Your task to perform on an android device: Go to ESPN.com Image 0: 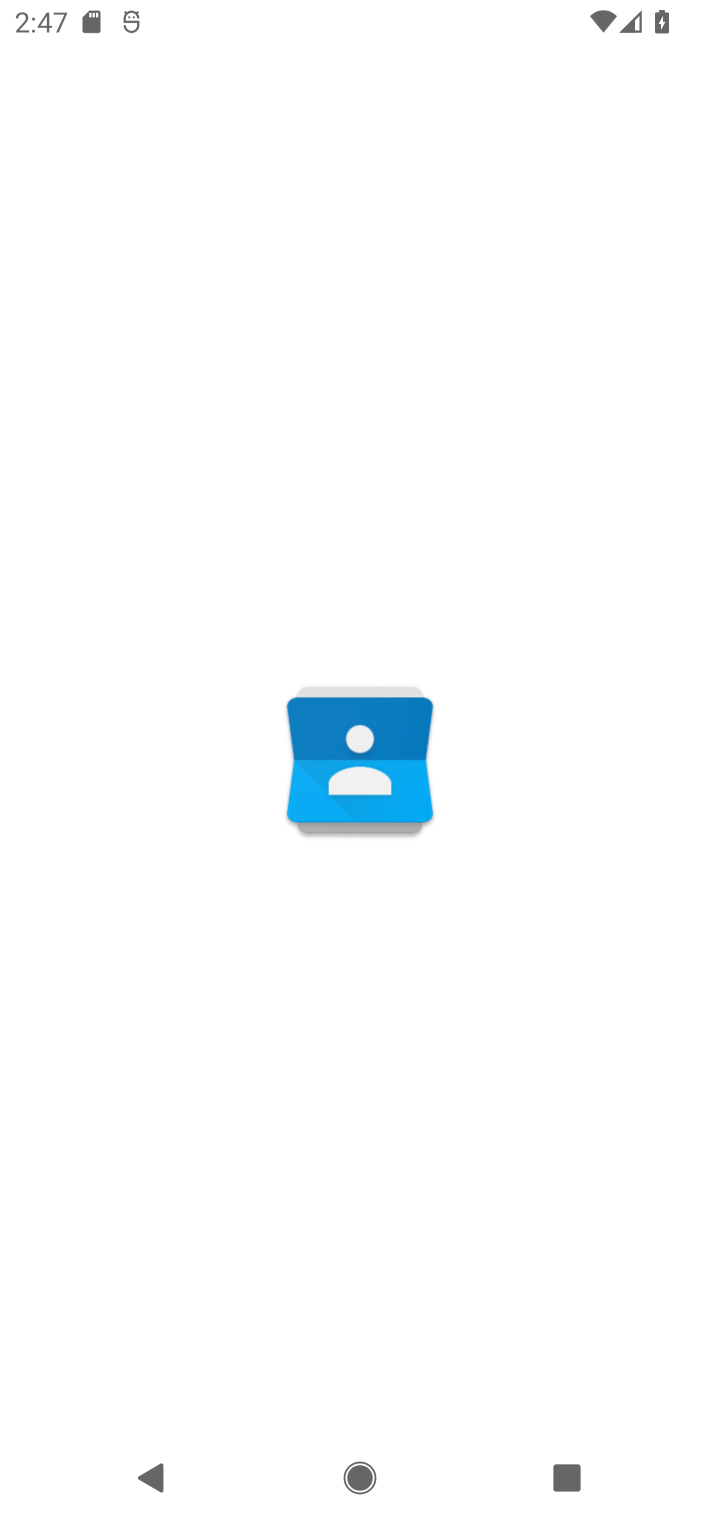
Step 0: press home button
Your task to perform on an android device: Go to ESPN.com Image 1: 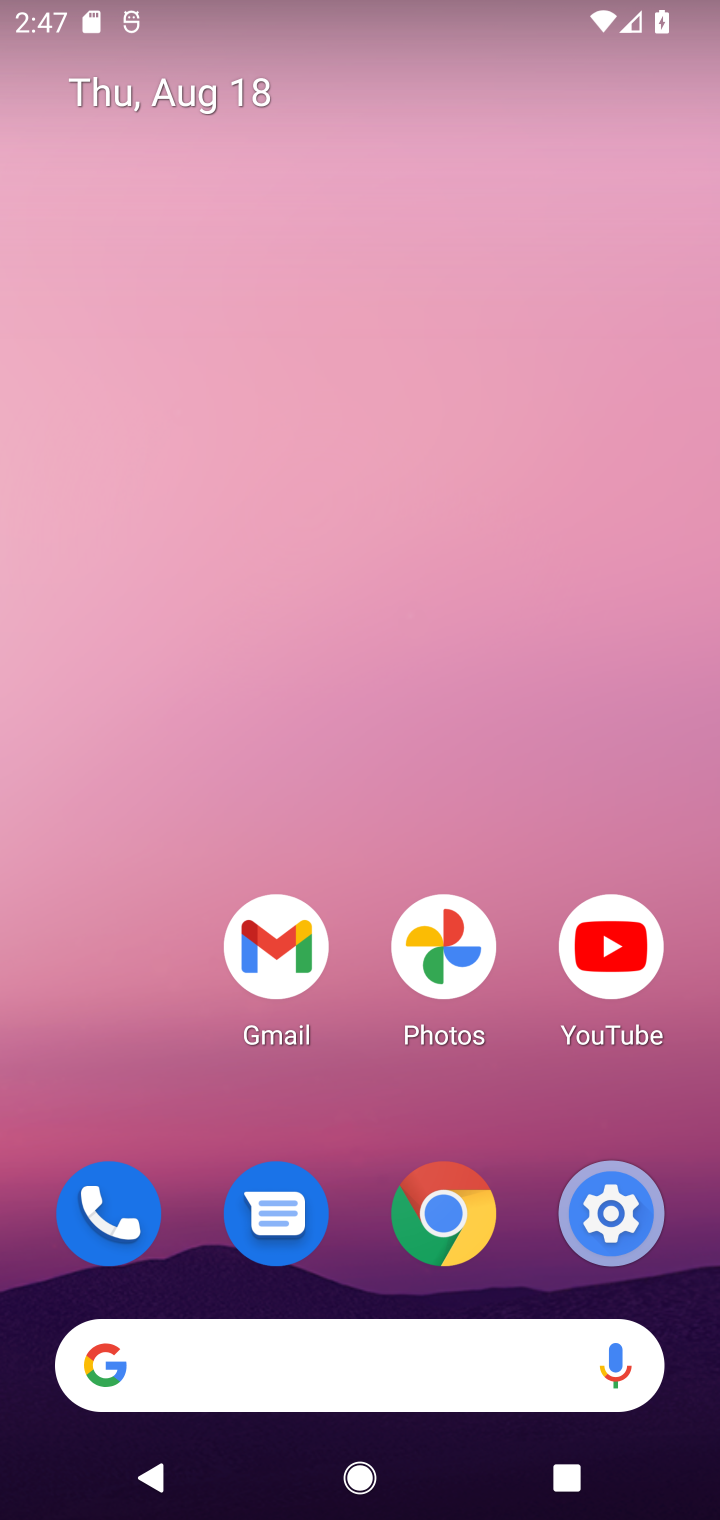
Step 1: click (114, 1372)
Your task to perform on an android device: Go to ESPN.com Image 2: 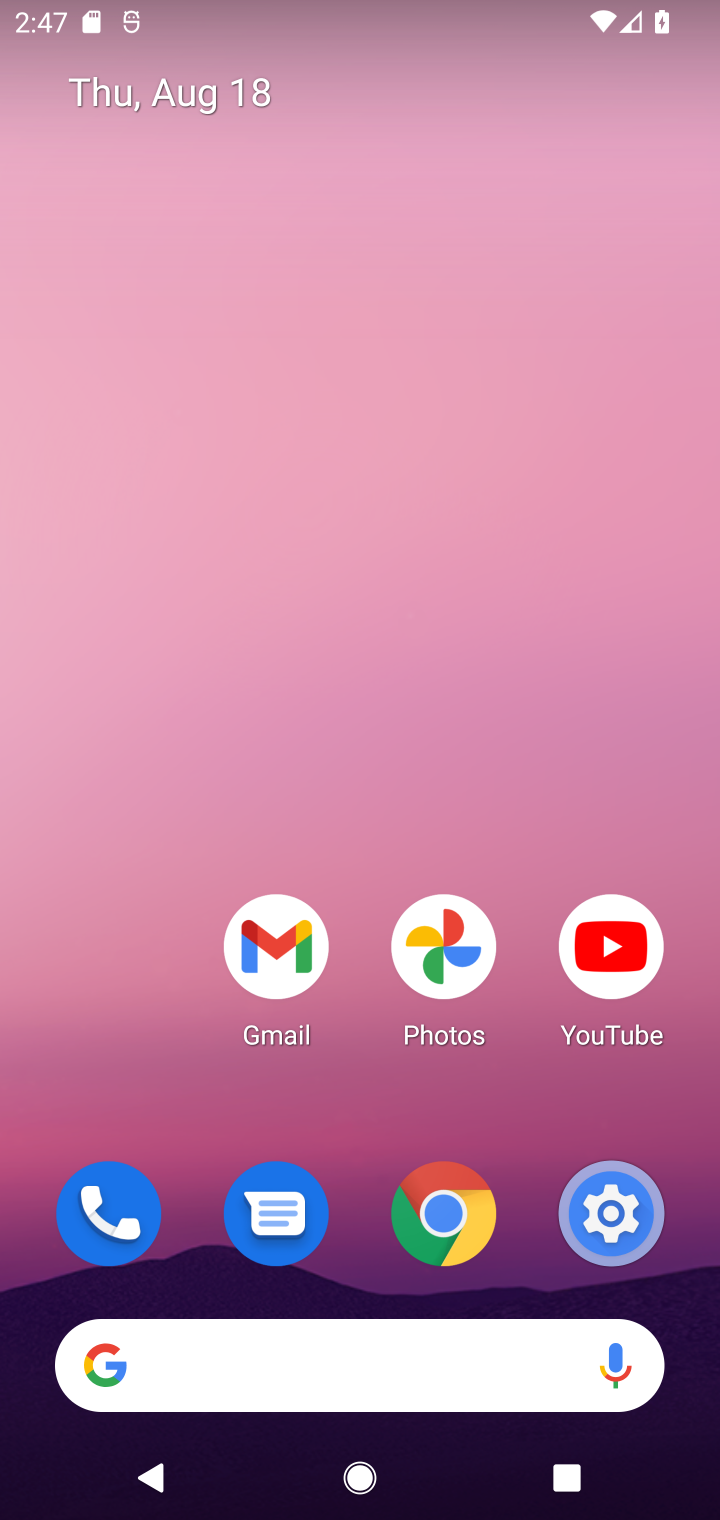
Step 2: click (95, 1371)
Your task to perform on an android device: Go to ESPN.com Image 3: 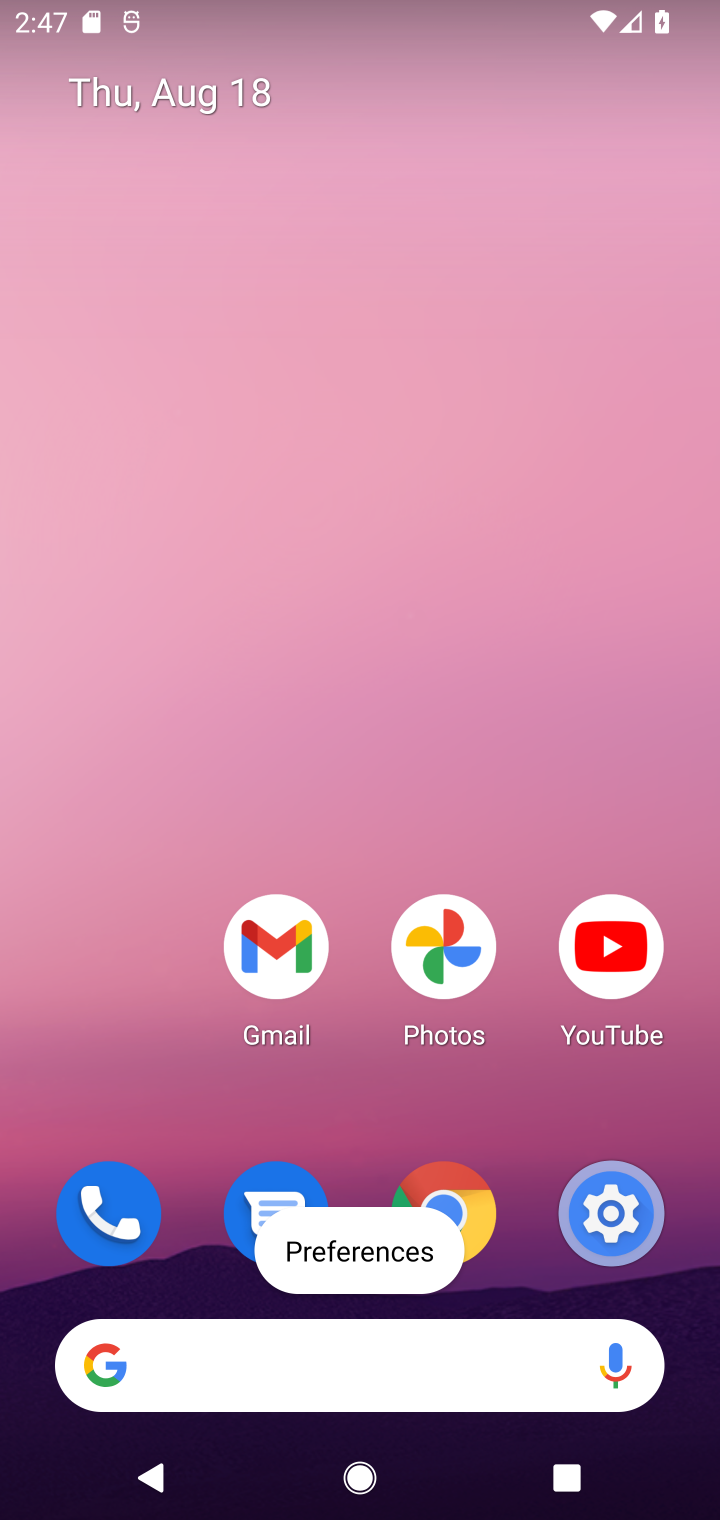
Step 3: click (103, 1363)
Your task to perform on an android device: Go to ESPN.com Image 4: 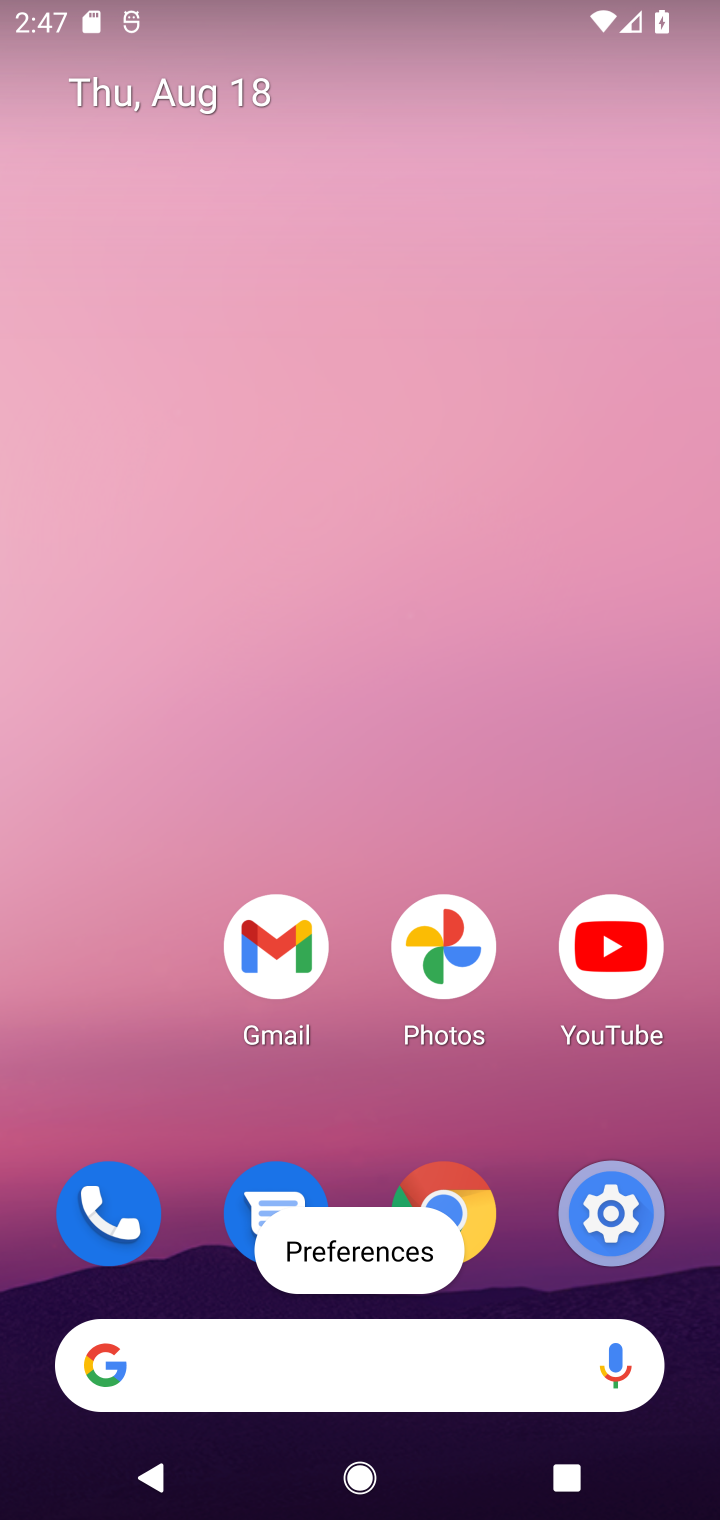
Step 4: click (111, 1376)
Your task to perform on an android device: Go to ESPN.com Image 5: 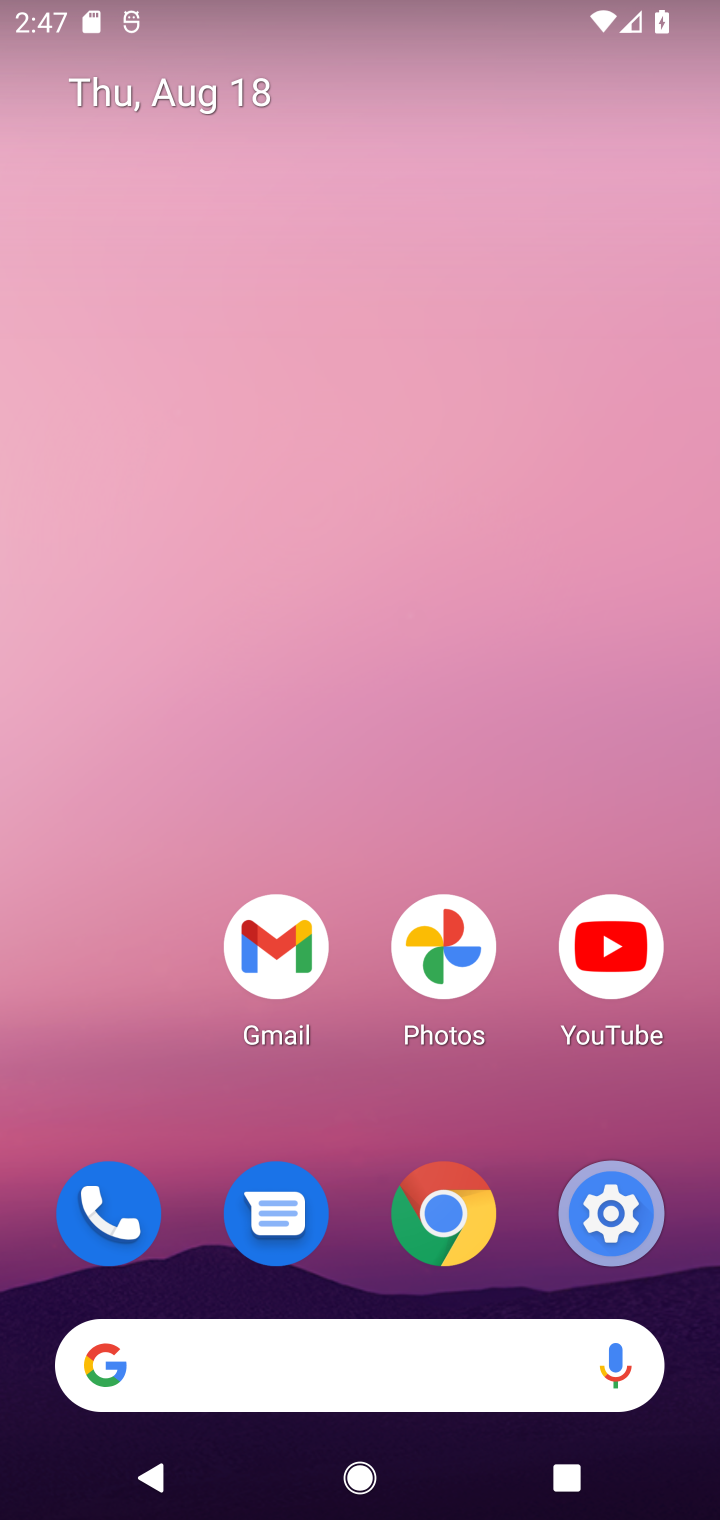
Step 5: click (106, 1373)
Your task to perform on an android device: Go to ESPN.com Image 6: 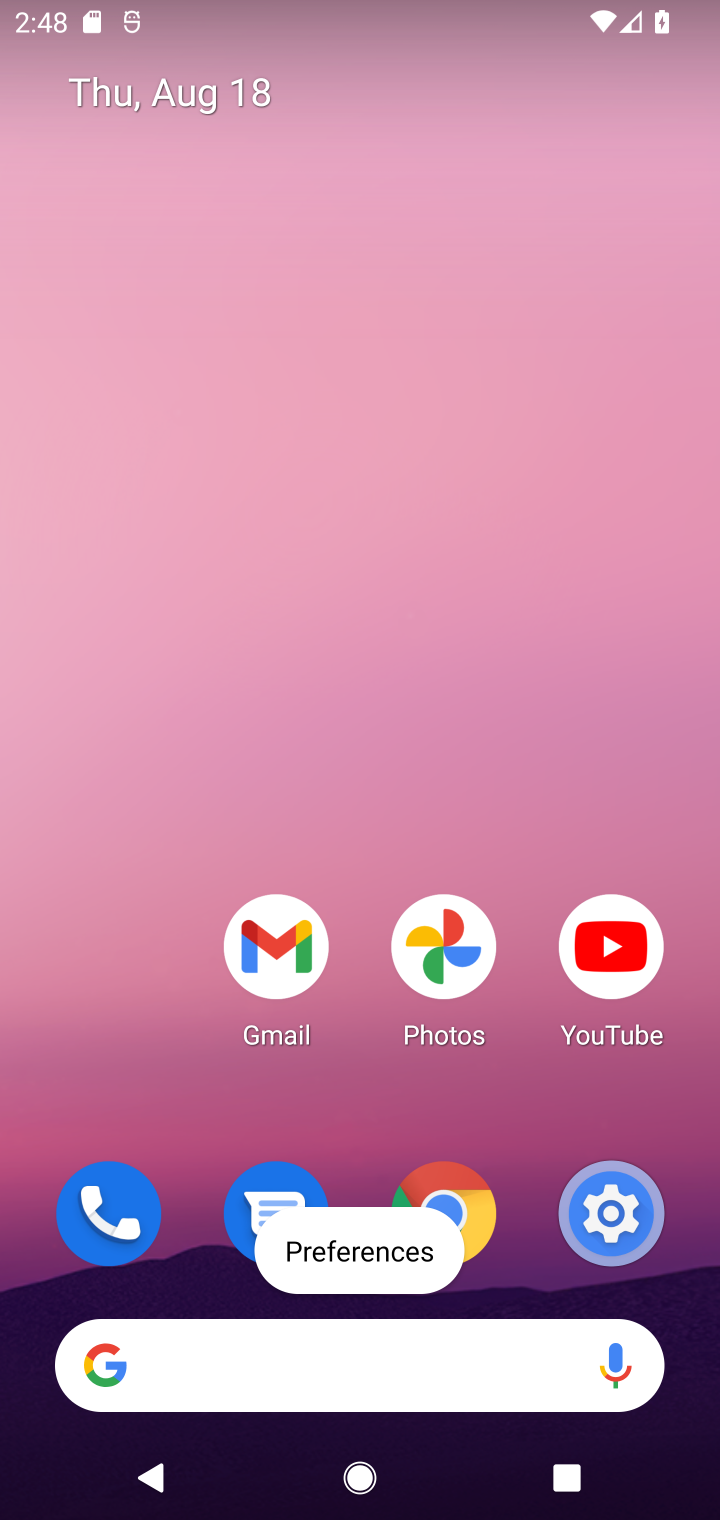
Step 6: click (93, 1384)
Your task to perform on an android device: Go to ESPN.com Image 7: 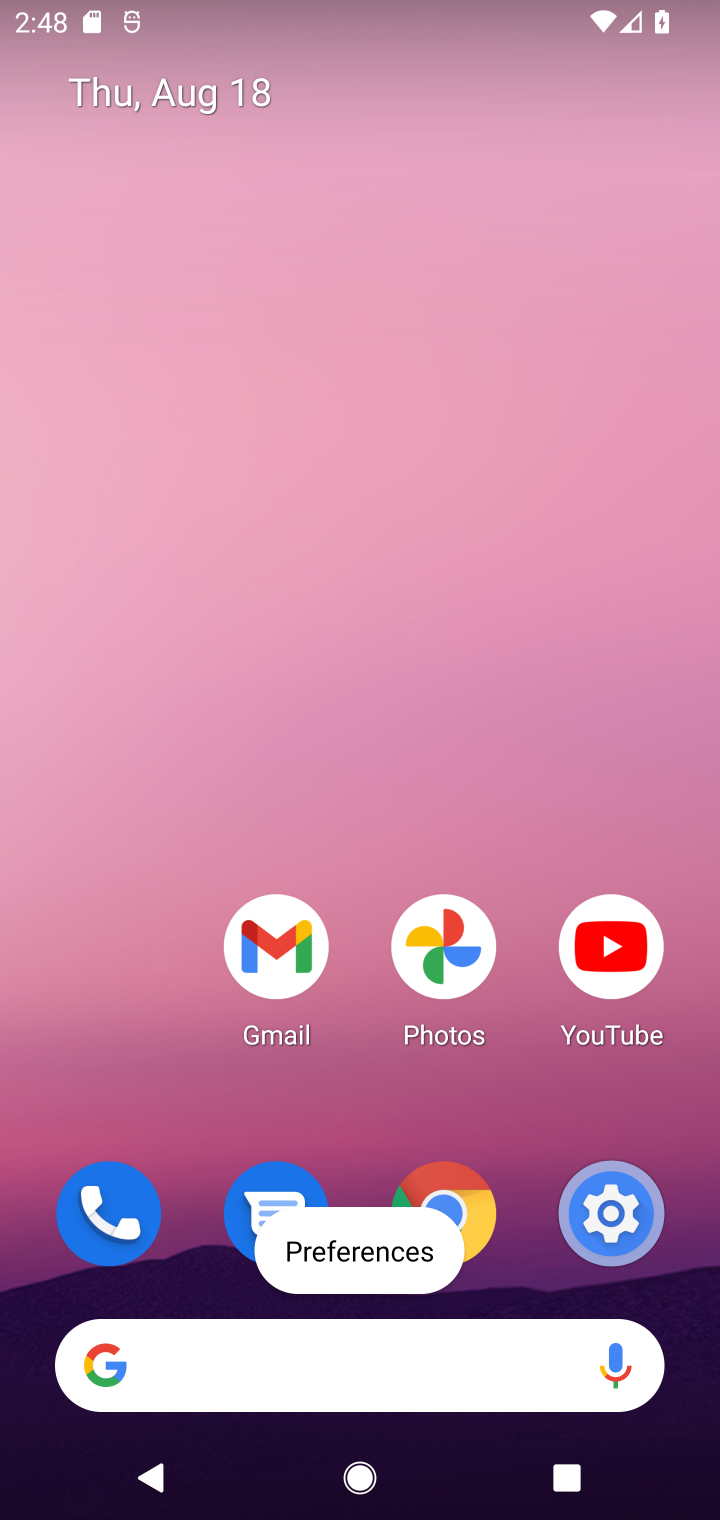
Step 7: click (107, 1370)
Your task to perform on an android device: Go to ESPN.com Image 8: 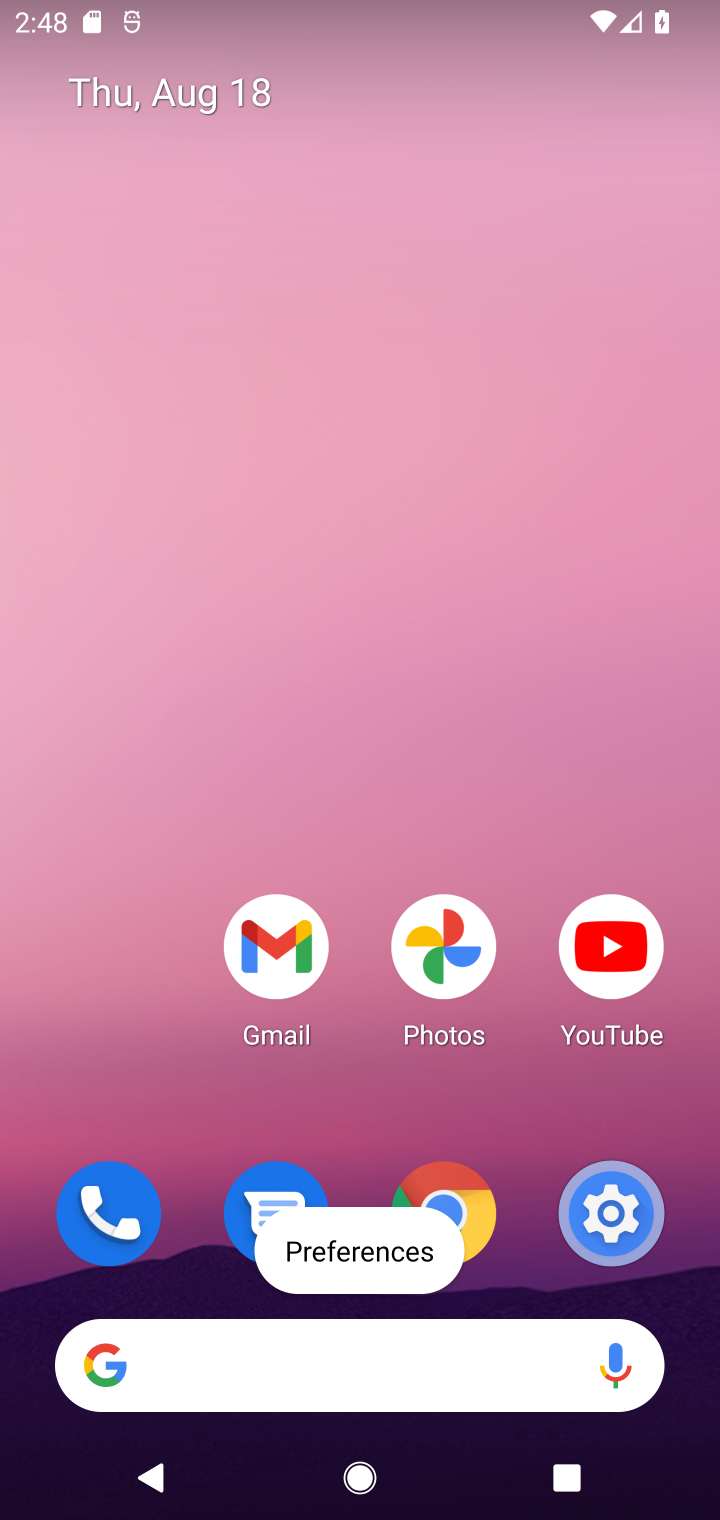
Step 8: click (107, 1370)
Your task to perform on an android device: Go to ESPN.com Image 9: 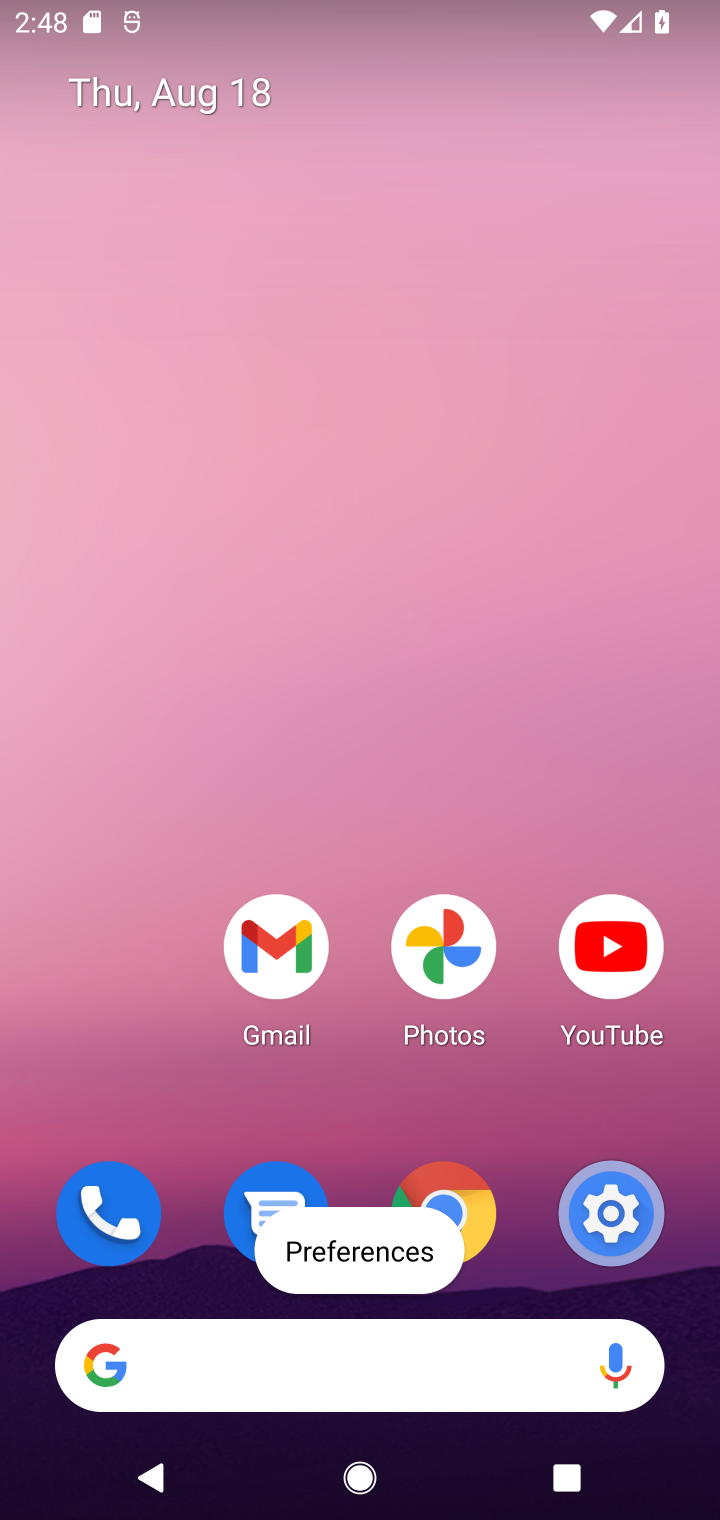
Step 9: click (303, 1399)
Your task to perform on an android device: Go to ESPN.com Image 10: 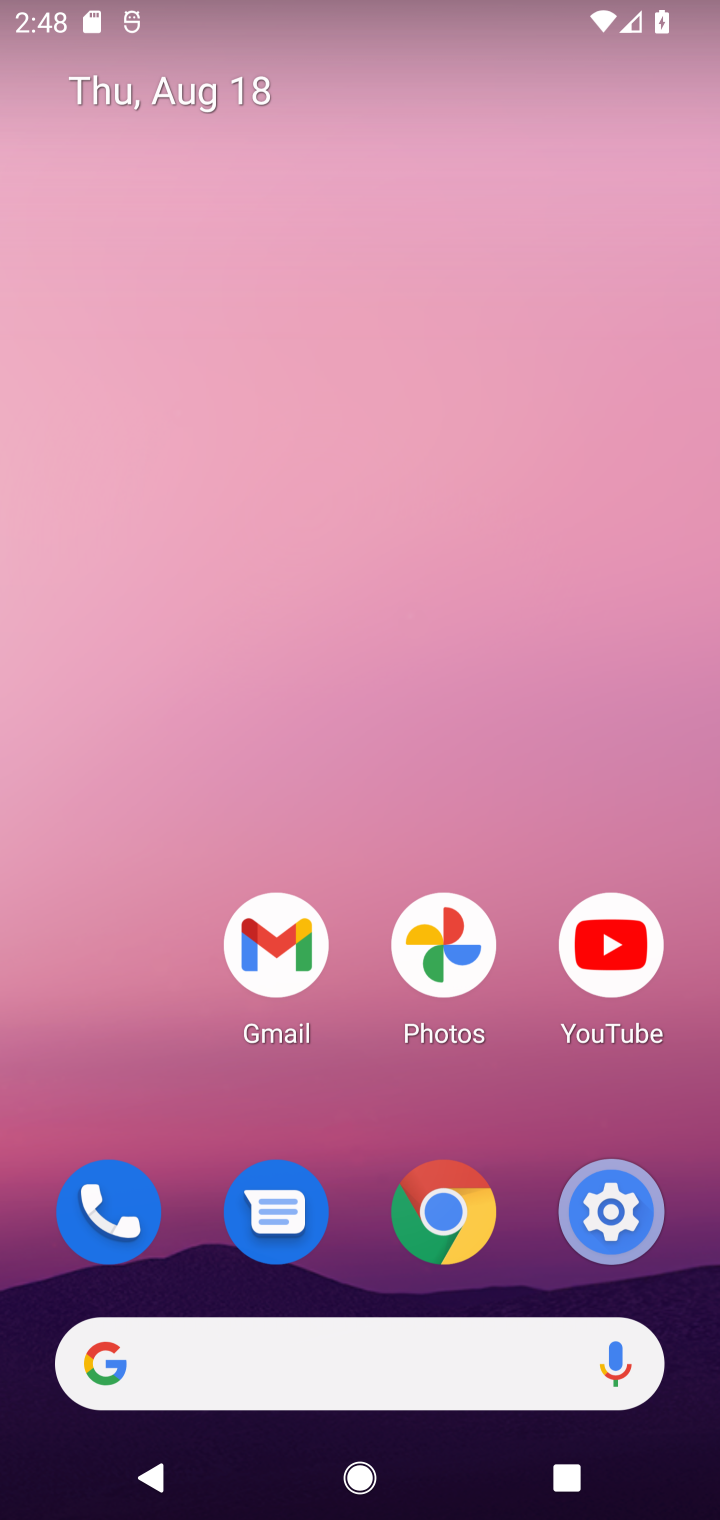
Step 10: click (188, 1358)
Your task to perform on an android device: Go to ESPN.com Image 11: 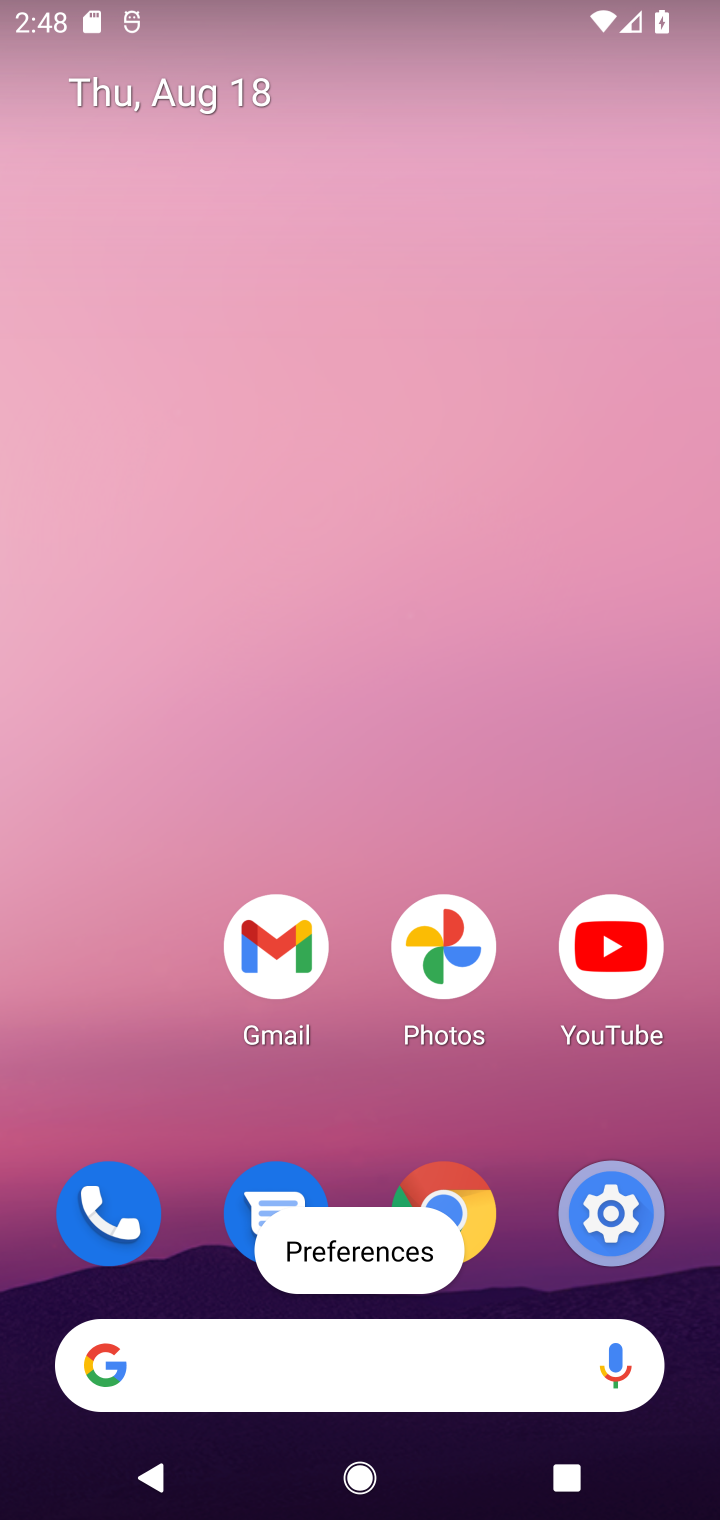
Step 11: click (140, 1346)
Your task to perform on an android device: Go to ESPN.com Image 12: 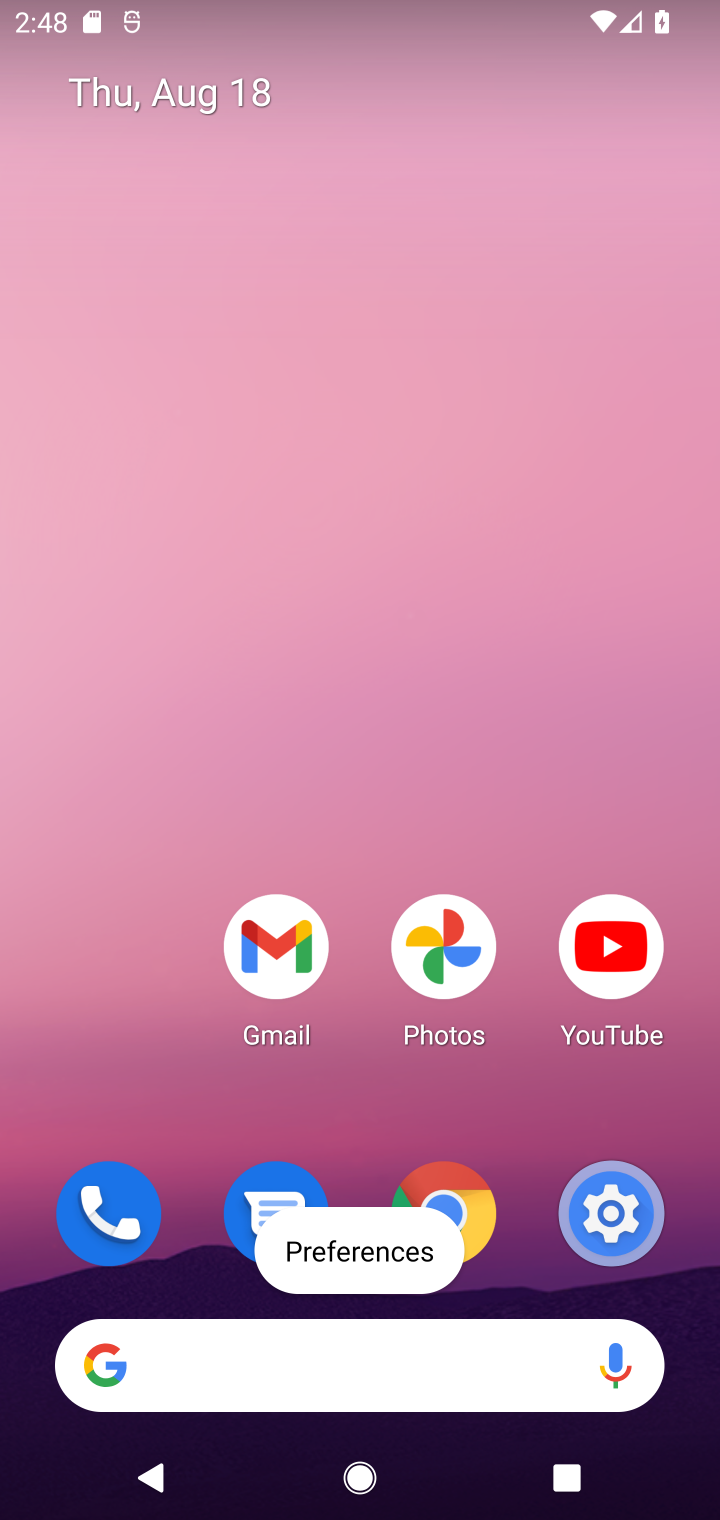
Step 12: click (108, 1366)
Your task to perform on an android device: Go to ESPN.com Image 13: 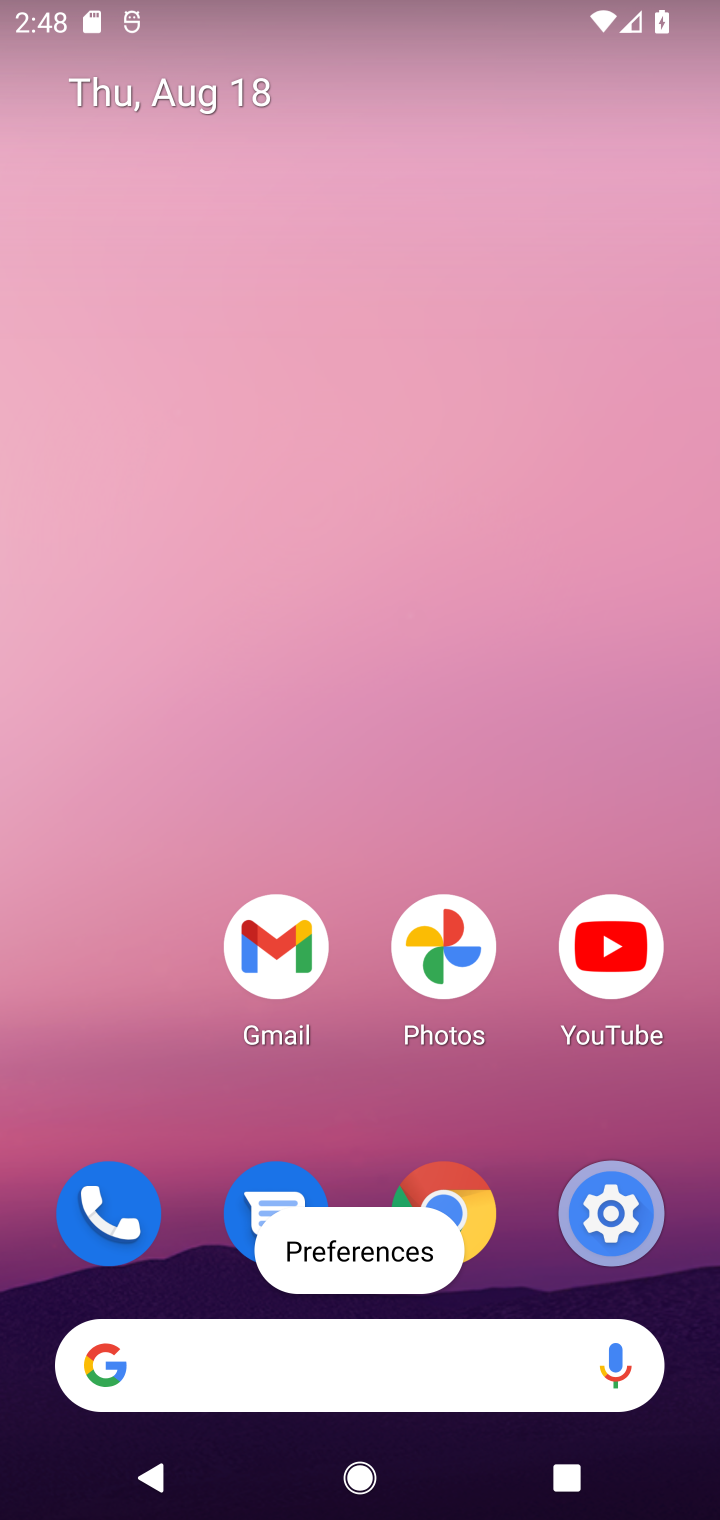
Step 13: click (108, 1368)
Your task to perform on an android device: Go to ESPN.com Image 14: 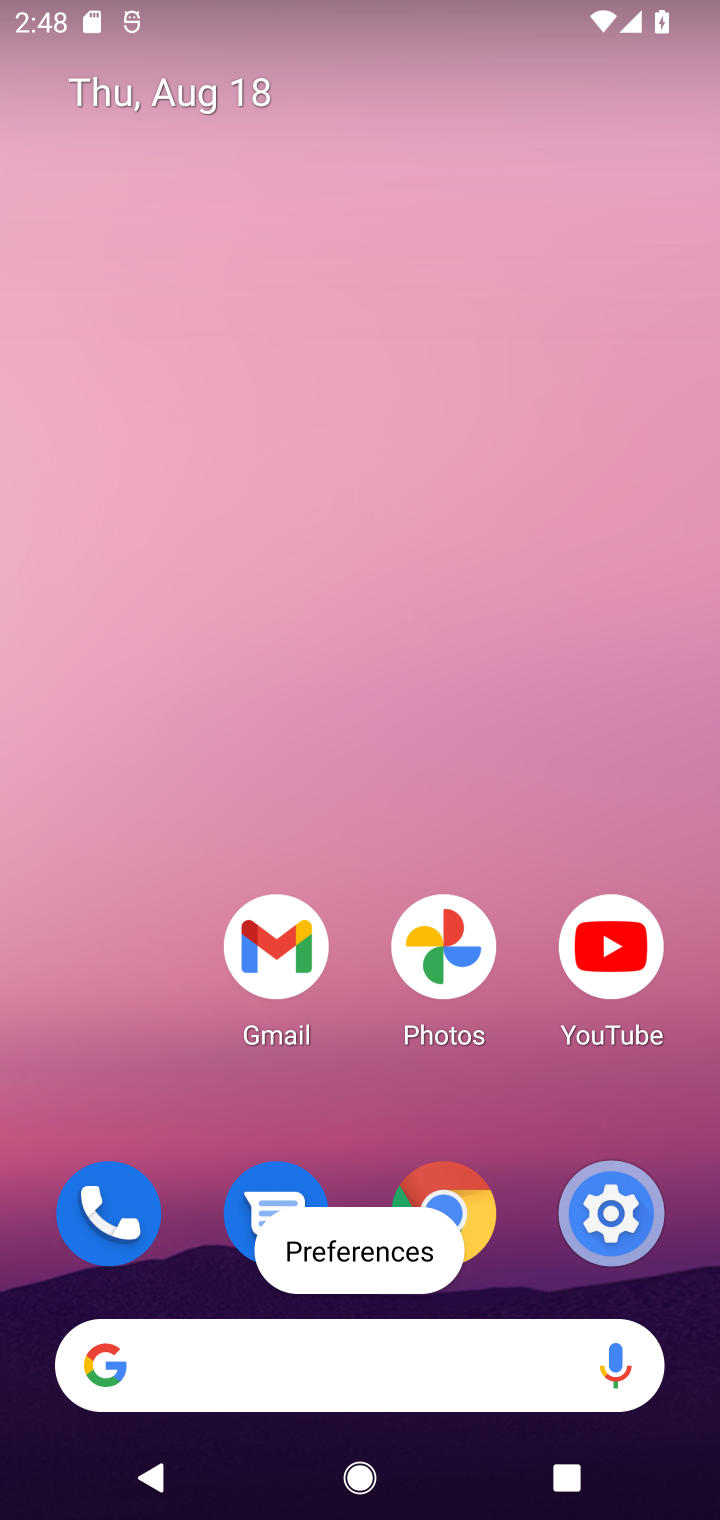
Step 14: click (89, 1395)
Your task to perform on an android device: Go to ESPN.com Image 15: 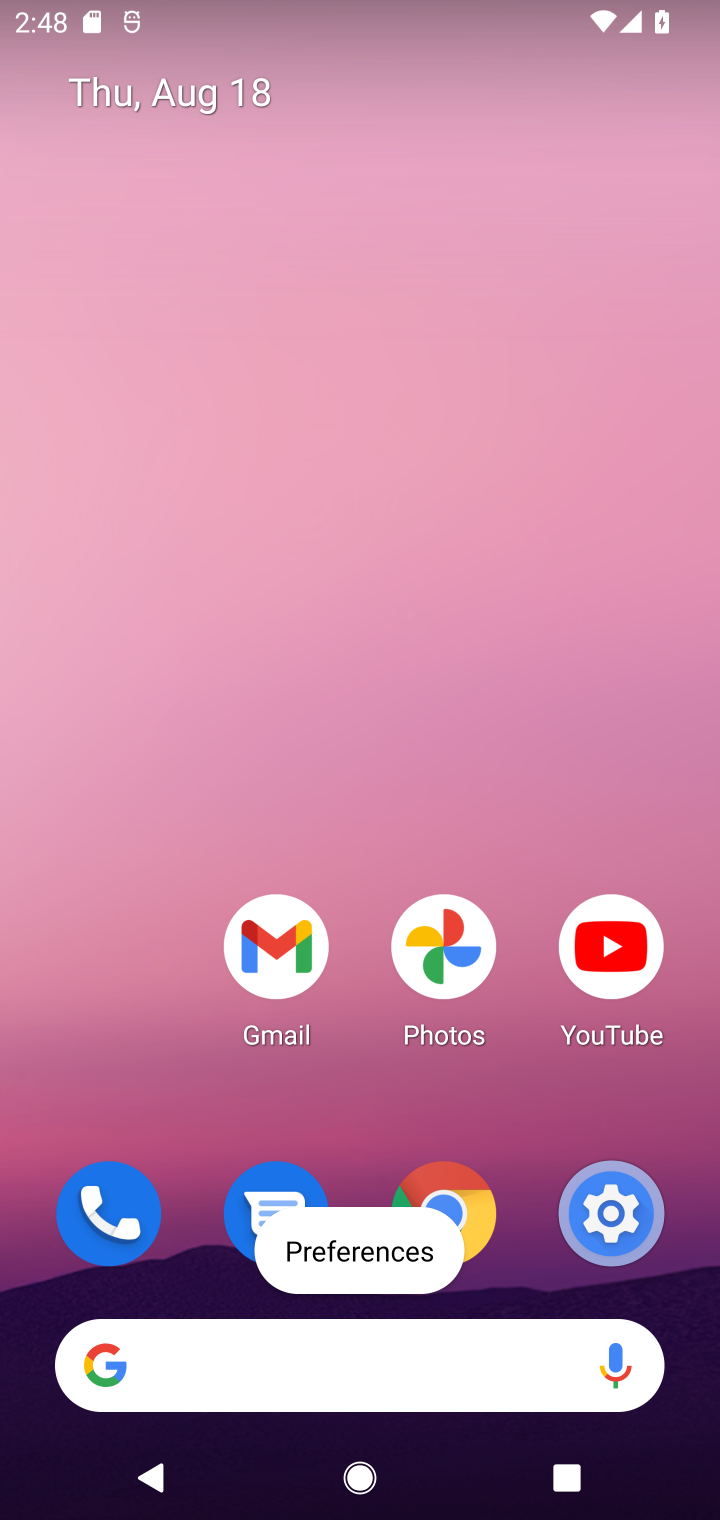
Step 15: click (102, 1380)
Your task to perform on an android device: Go to ESPN.com Image 16: 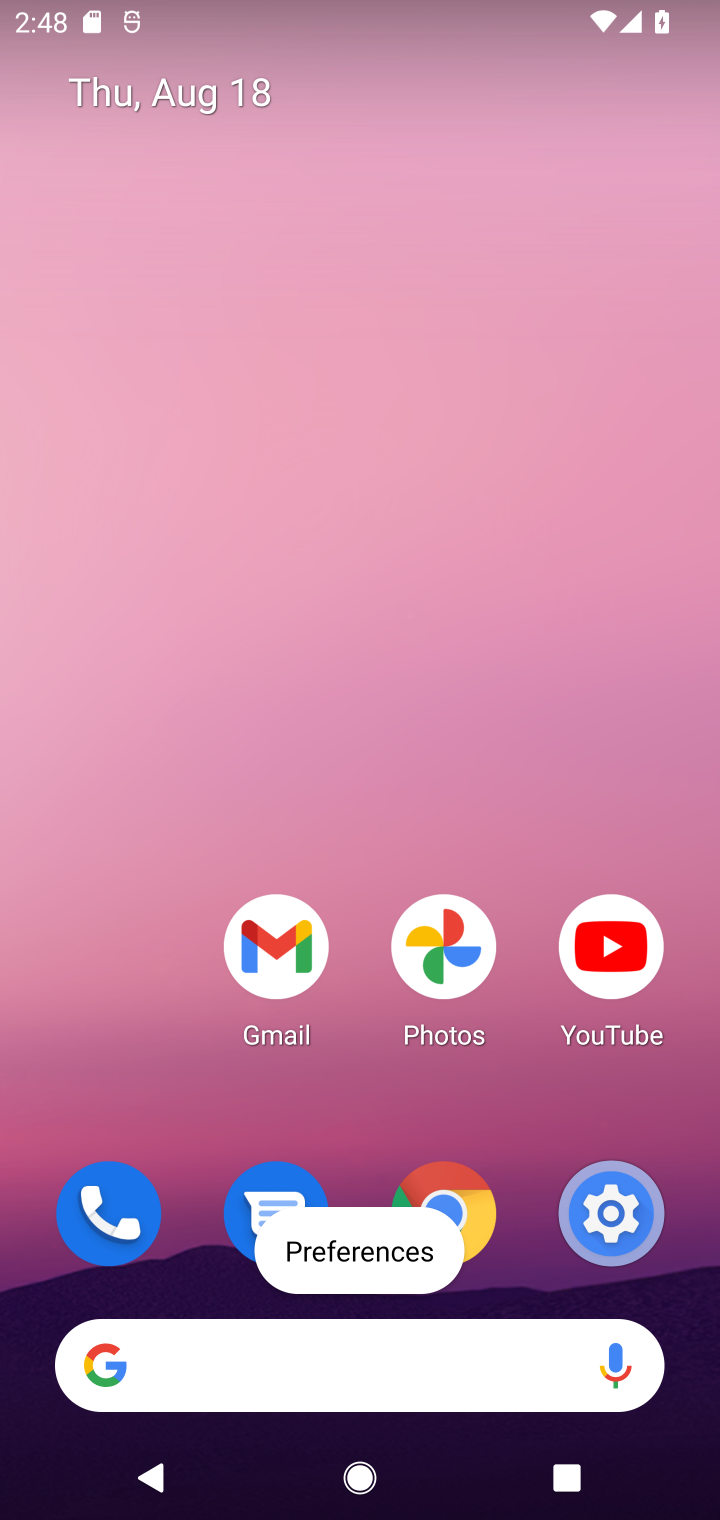
Step 16: click (102, 1380)
Your task to perform on an android device: Go to ESPN.com Image 17: 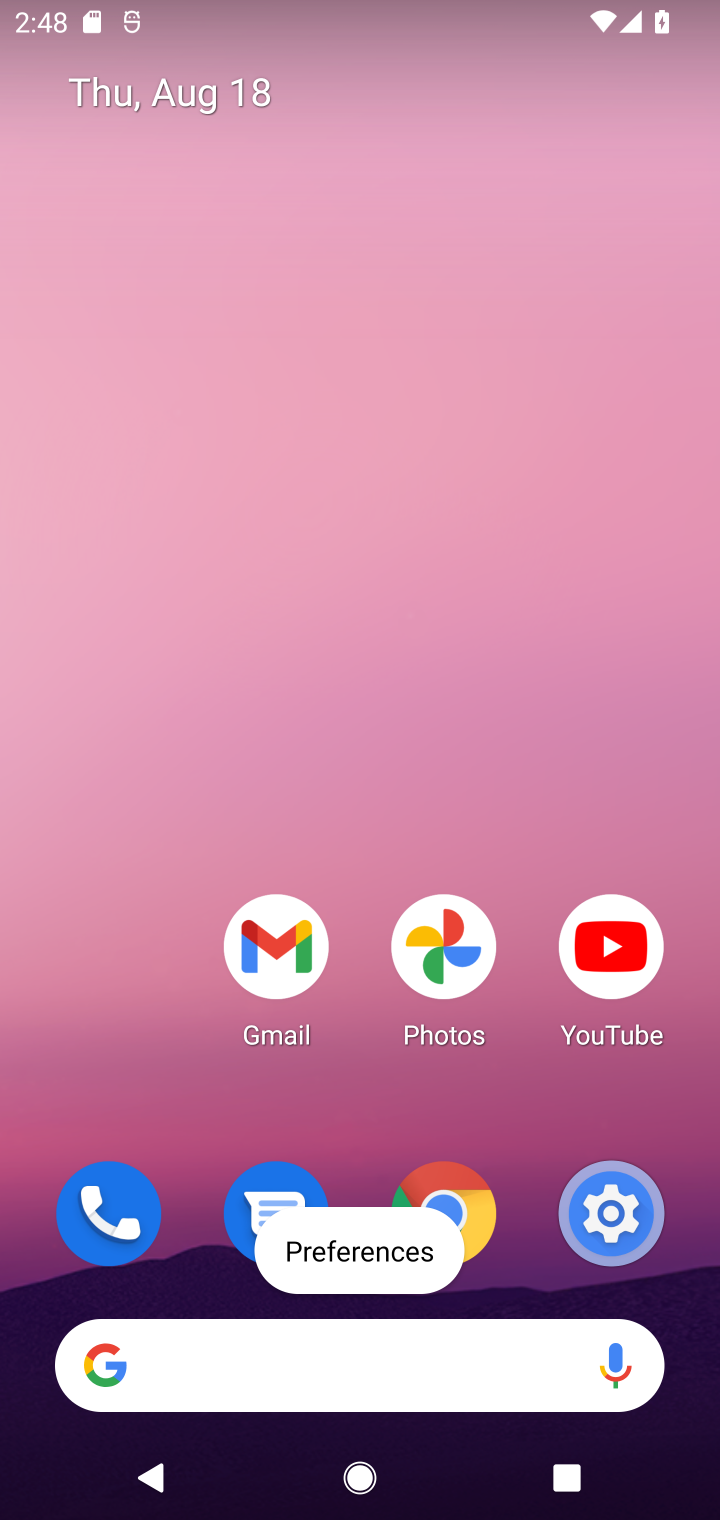
Step 17: click (101, 1363)
Your task to perform on an android device: Go to ESPN.com Image 18: 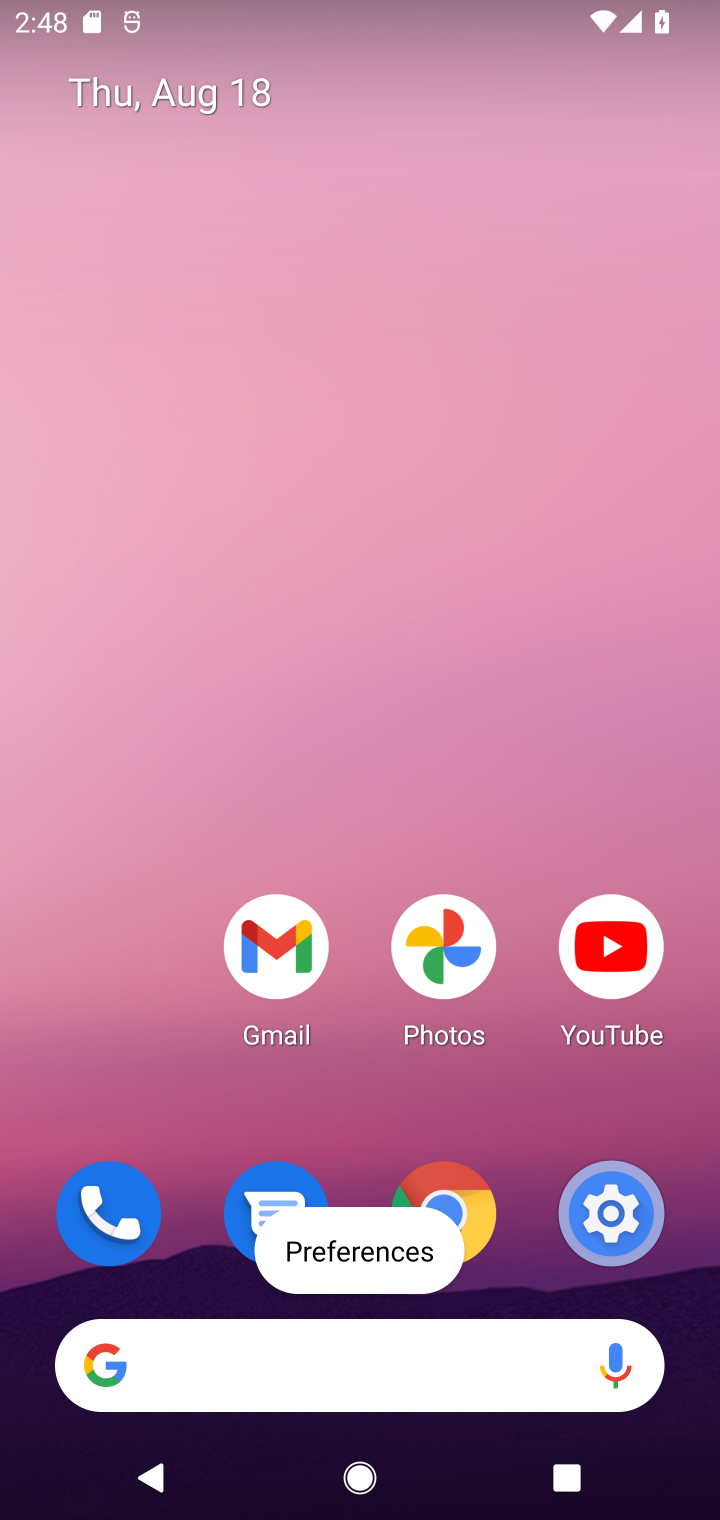
Step 18: click (96, 1343)
Your task to perform on an android device: Go to ESPN.com Image 19: 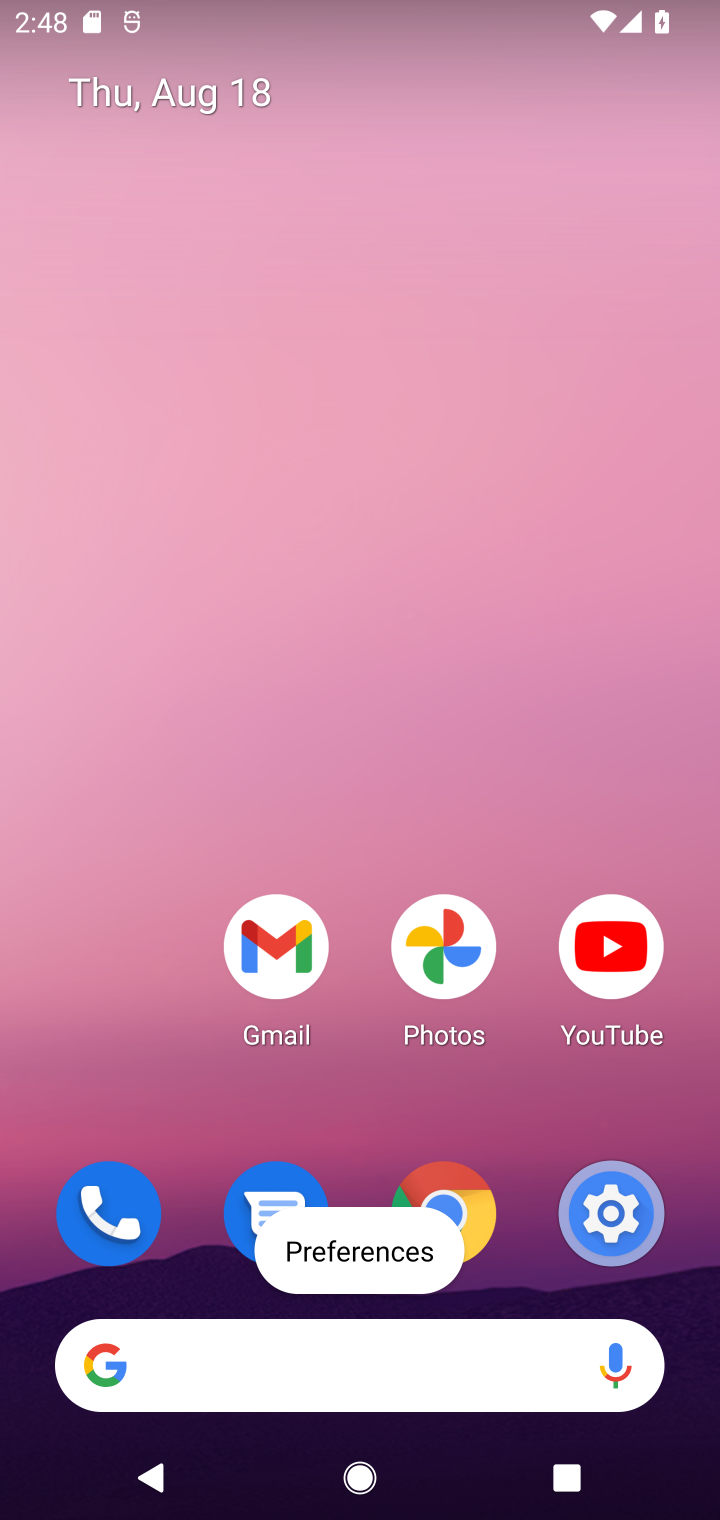
Step 19: click (115, 1377)
Your task to perform on an android device: Go to ESPN.com Image 20: 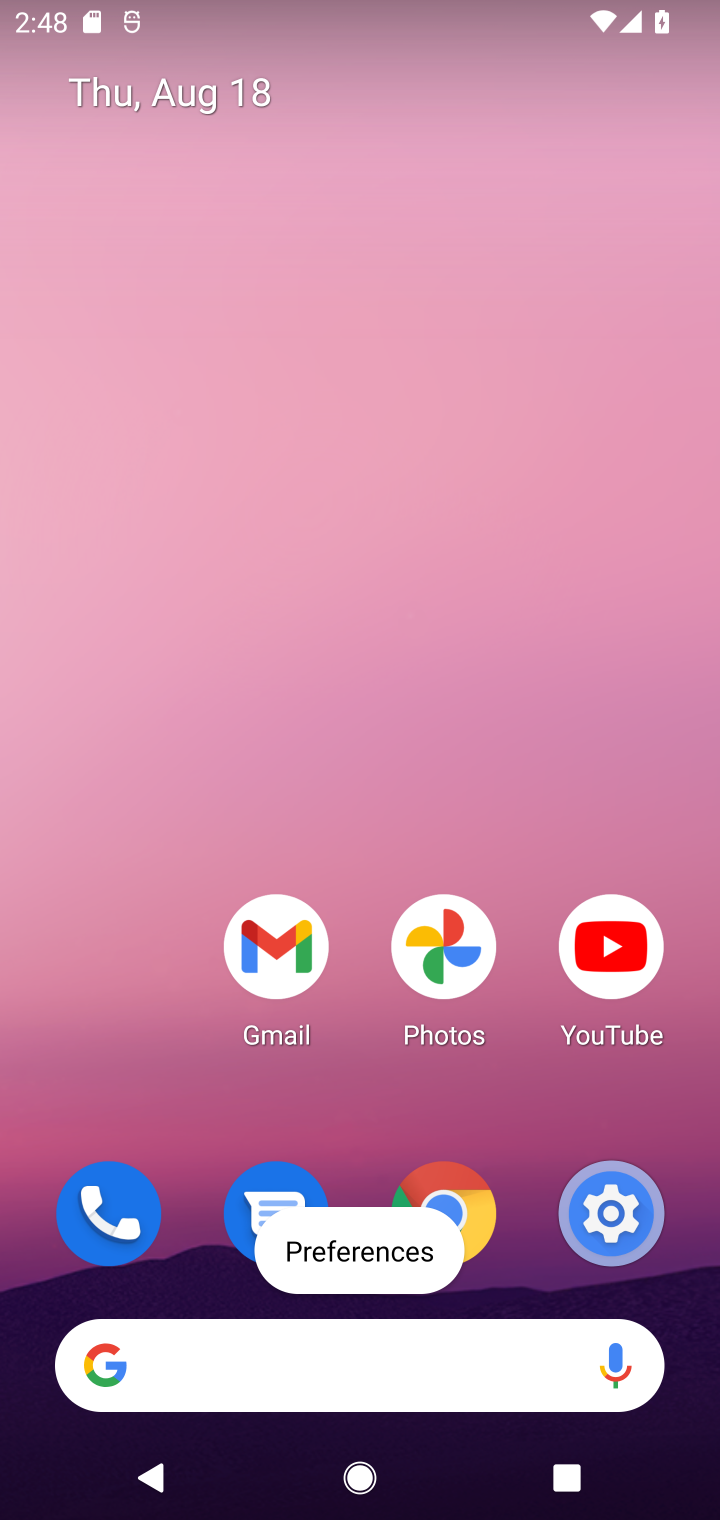
Step 20: click (89, 1364)
Your task to perform on an android device: Go to ESPN.com Image 21: 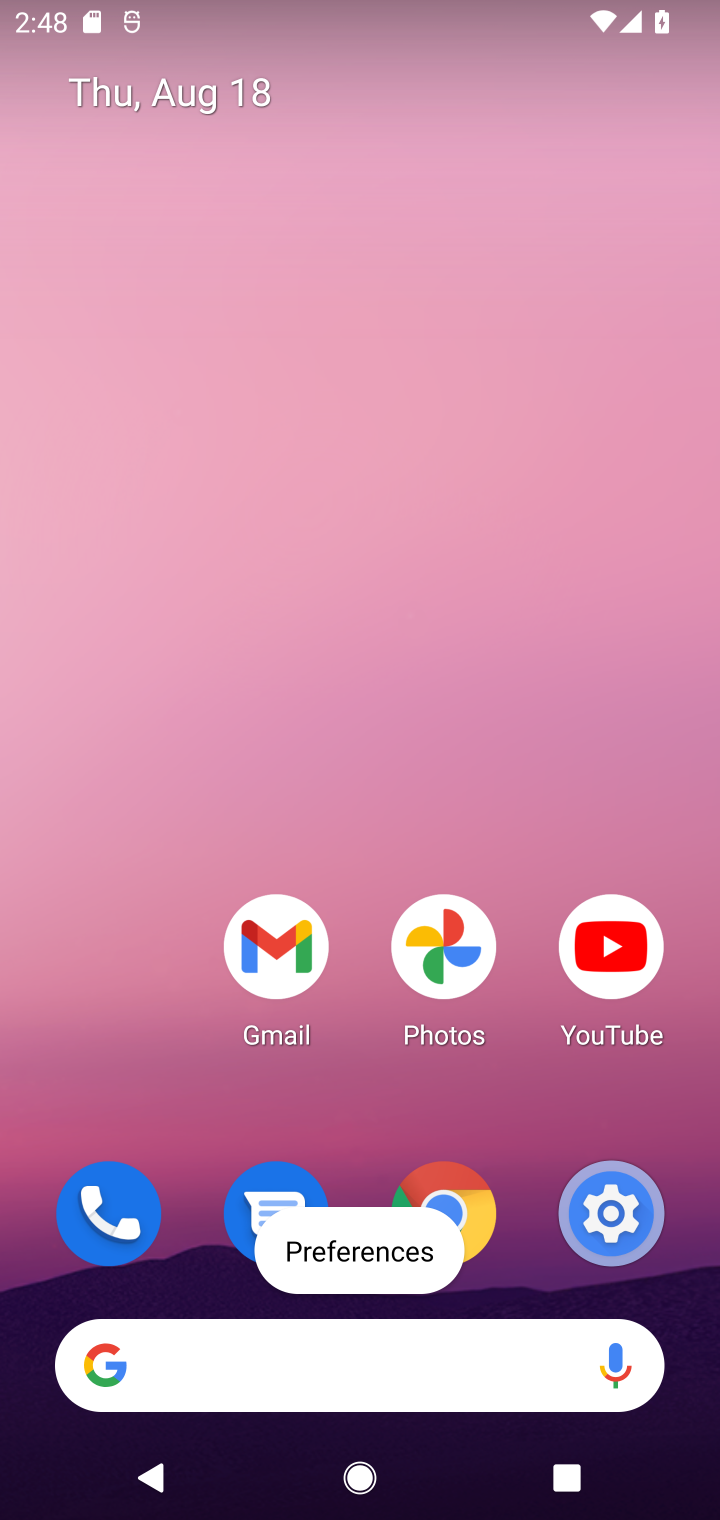
Step 21: drag from (152, 1049) to (399, 267)
Your task to perform on an android device: Go to ESPN.com Image 22: 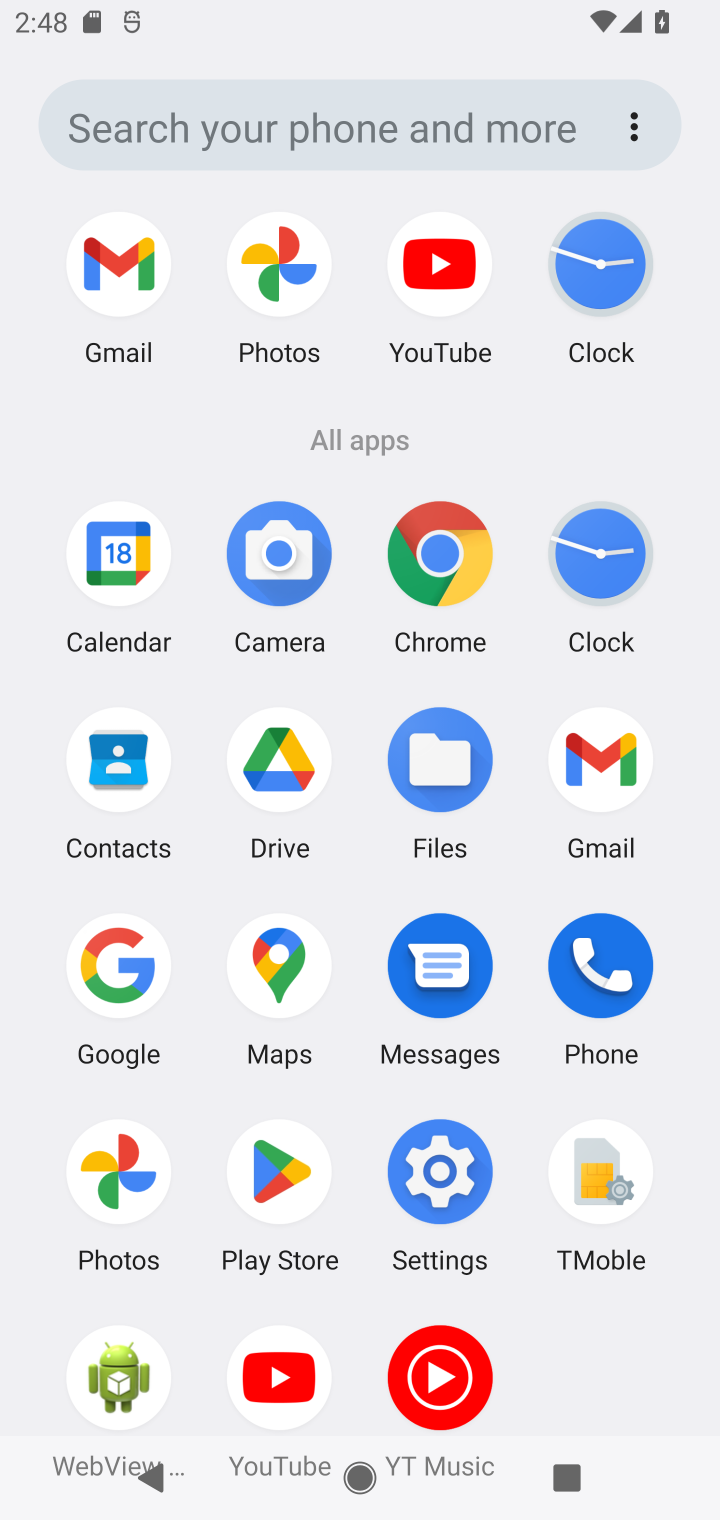
Step 22: click (127, 957)
Your task to perform on an android device: Go to ESPN.com Image 23: 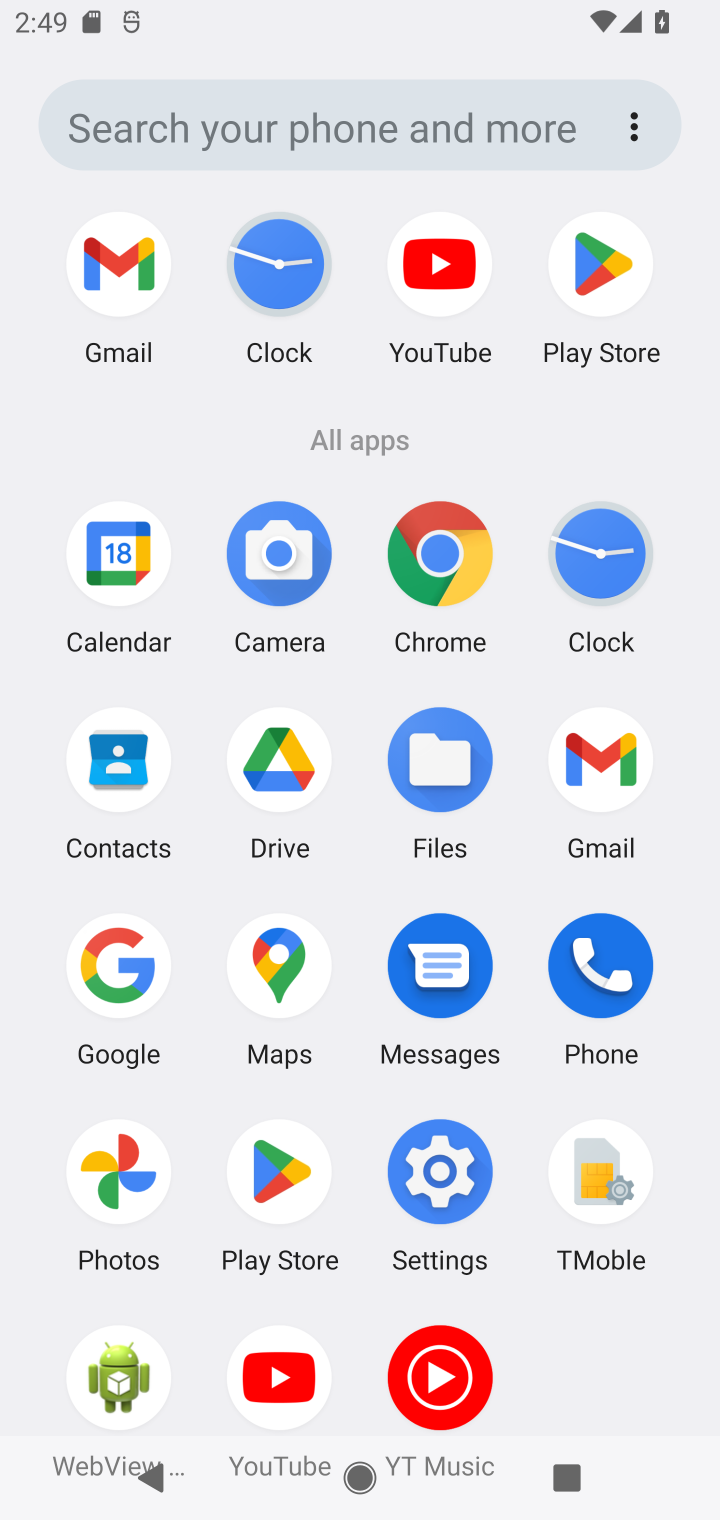
Step 23: click (124, 966)
Your task to perform on an android device: Go to ESPN.com Image 24: 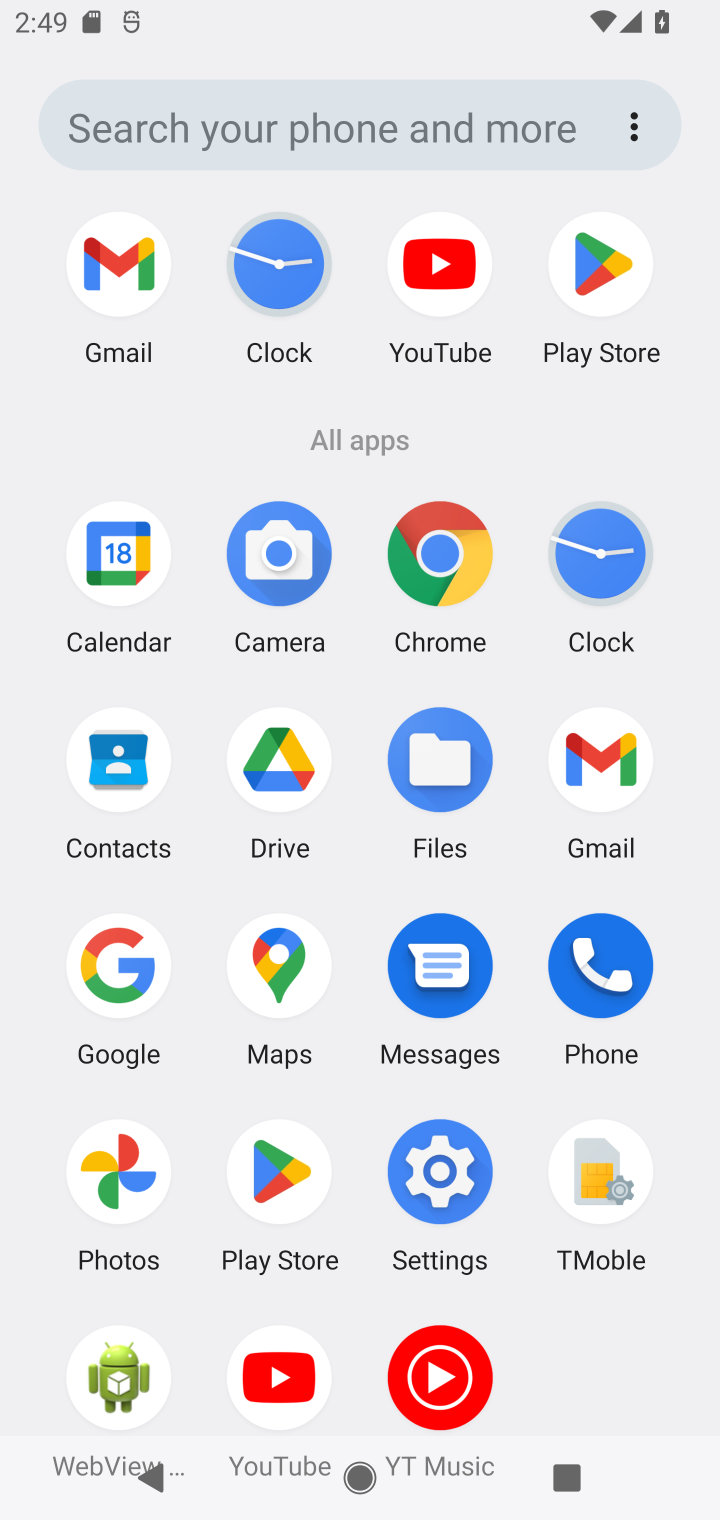
Step 24: click (125, 952)
Your task to perform on an android device: Go to ESPN.com Image 25: 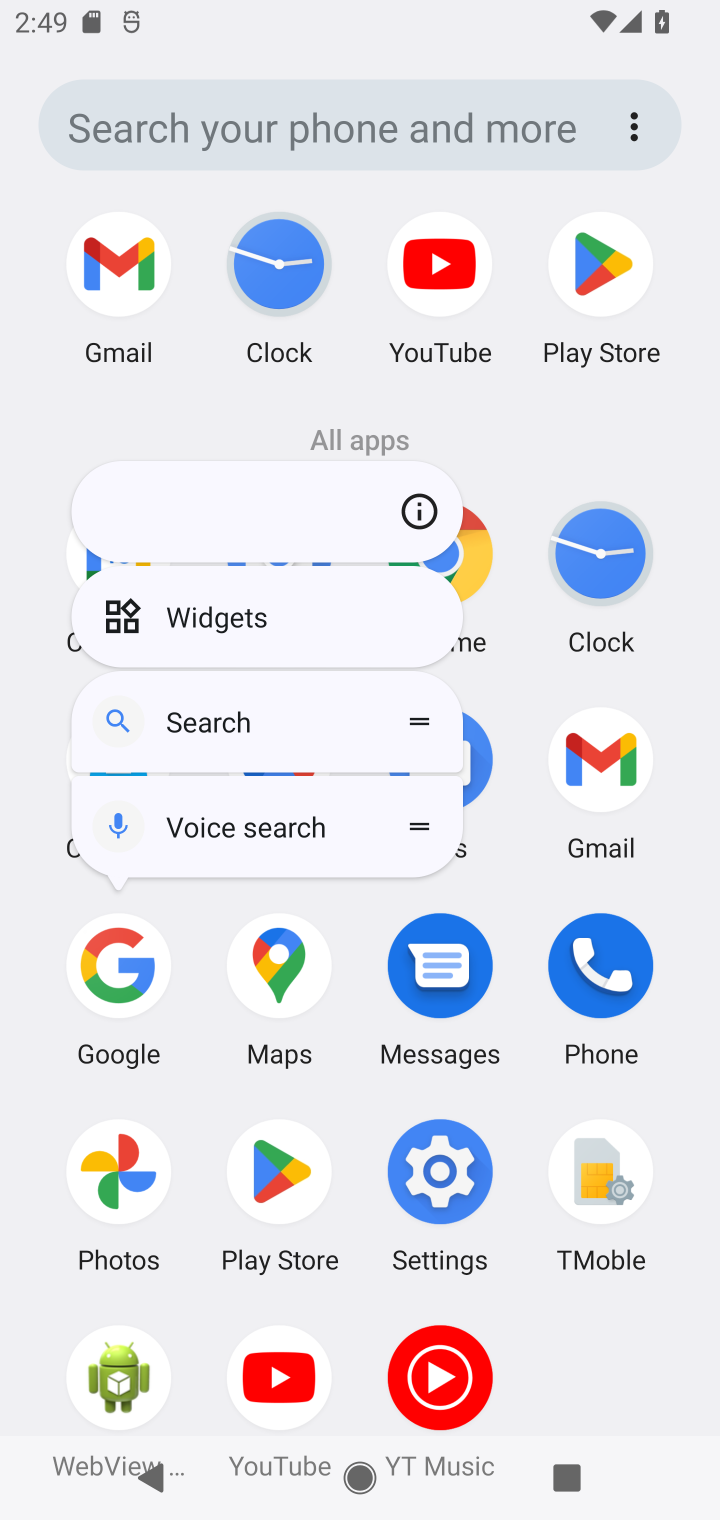
Step 25: click (122, 956)
Your task to perform on an android device: Go to ESPN.com Image 26: 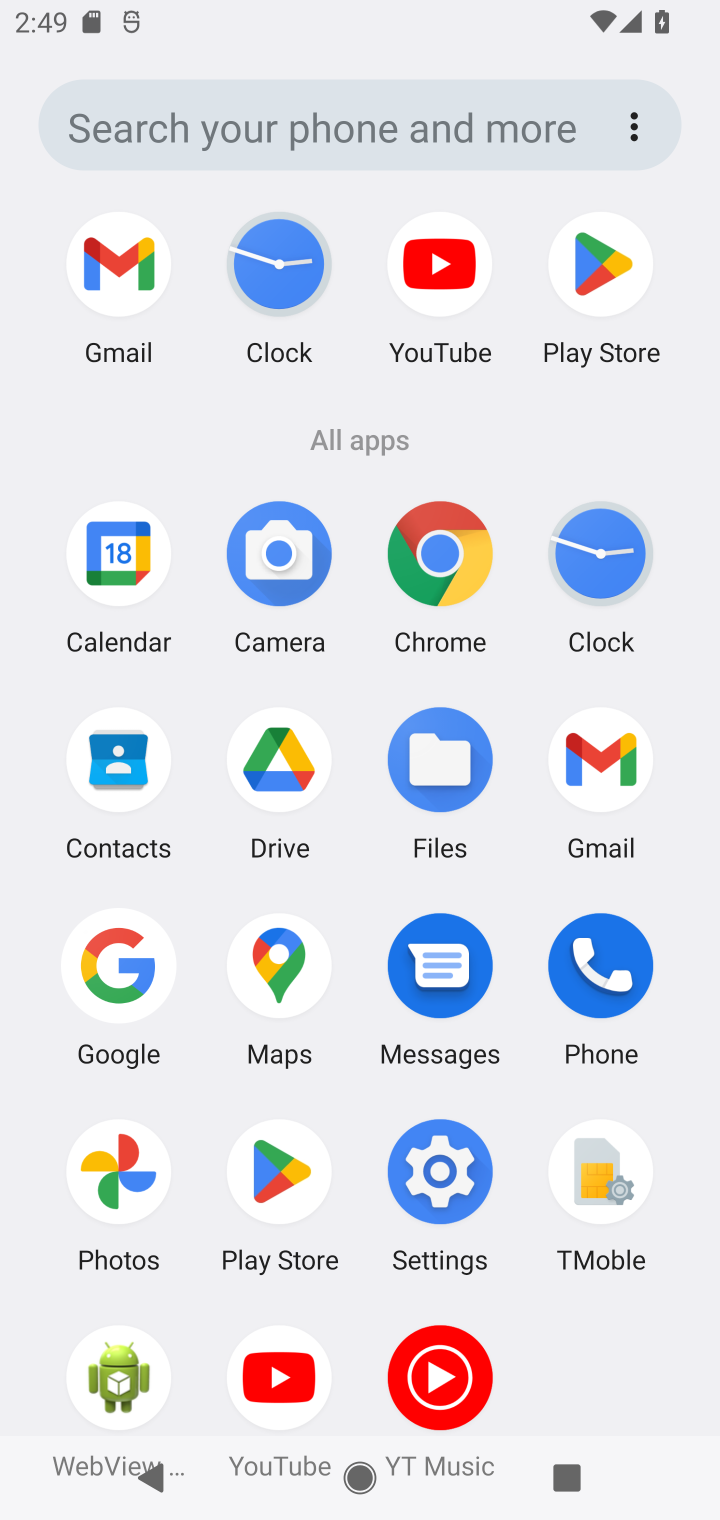
Step 26: click (122, 956)
Your task to perform on an android device: Go to ESPN.com Image 27: 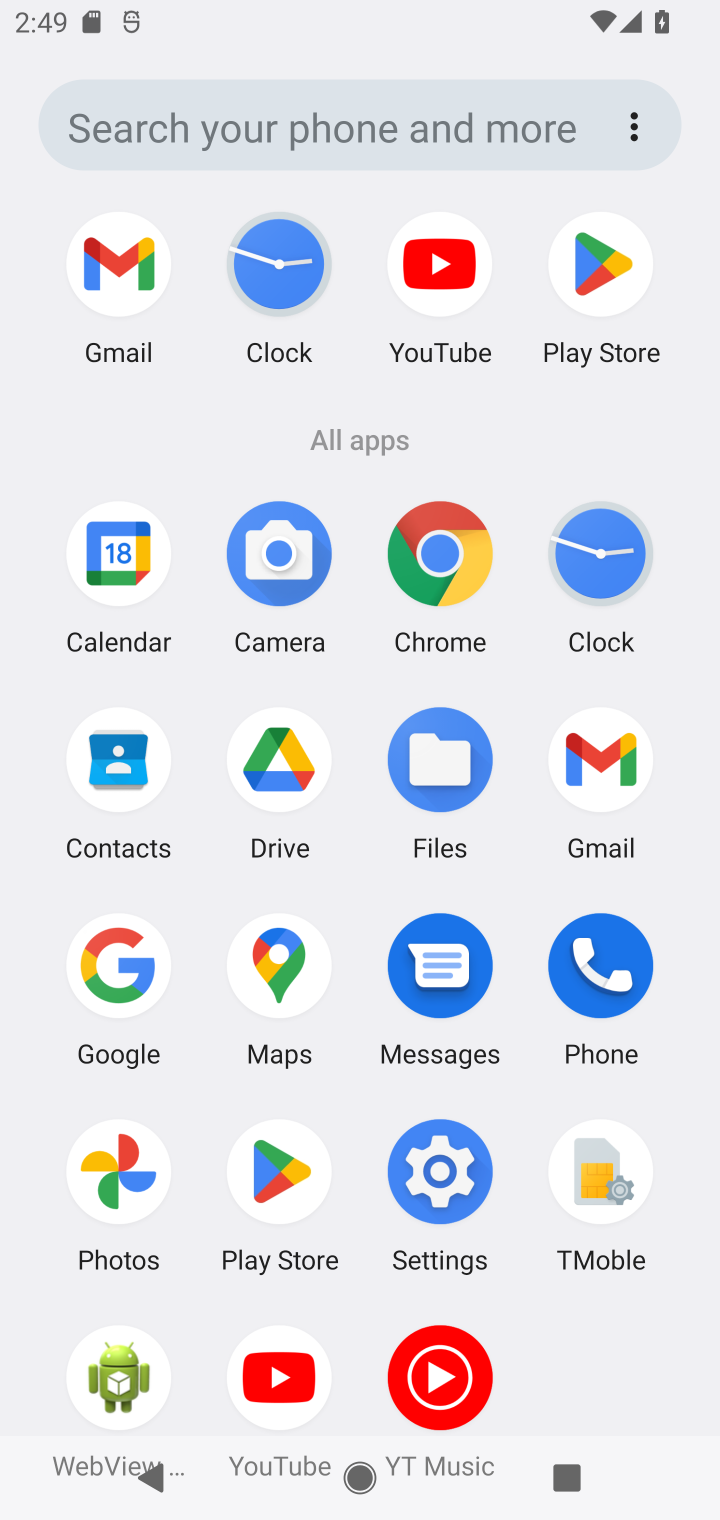
Step 27: click (124, 969)
Your task to perform on an android device: Go to ESPN.com Image 28: 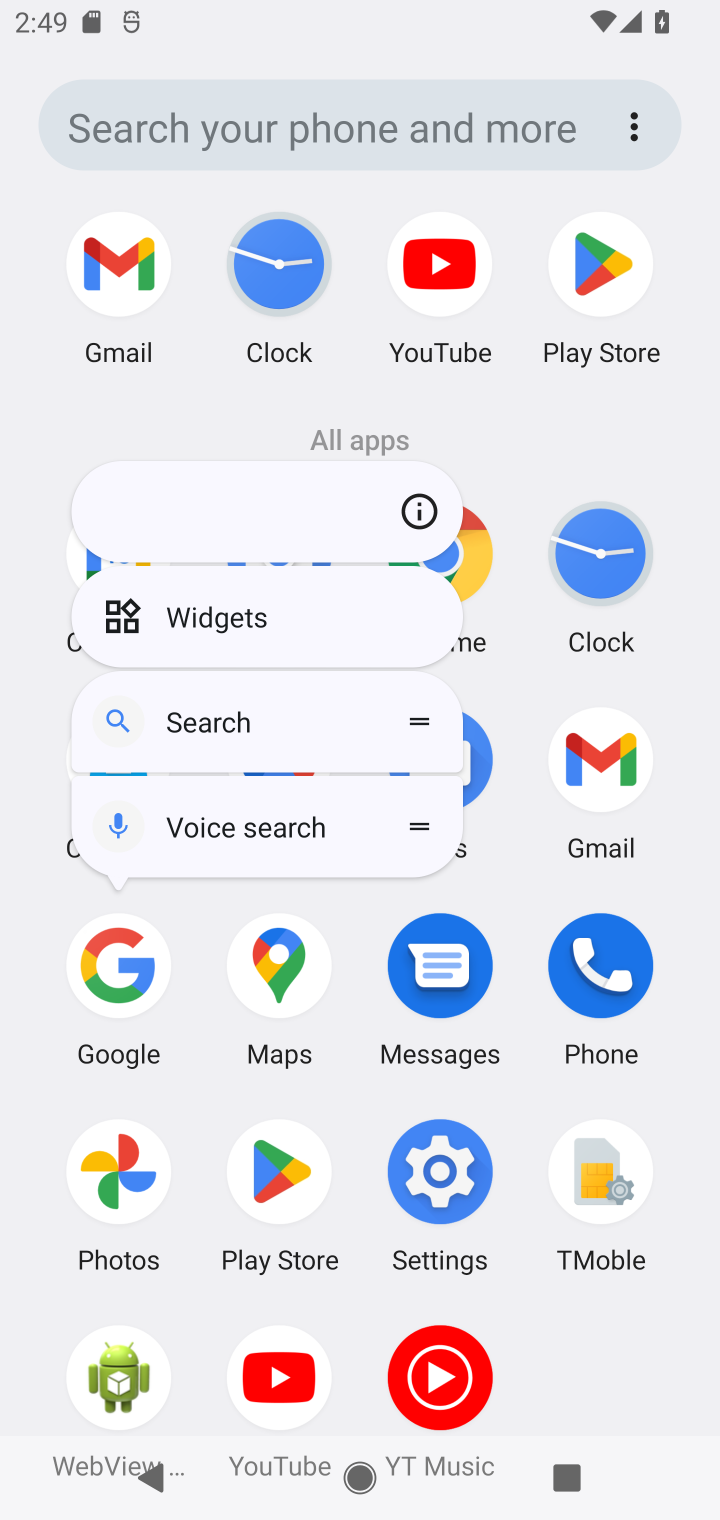
Step 28: click (124, 968)
Your task to perform on an android device: Go to ESPN.com Image 29: 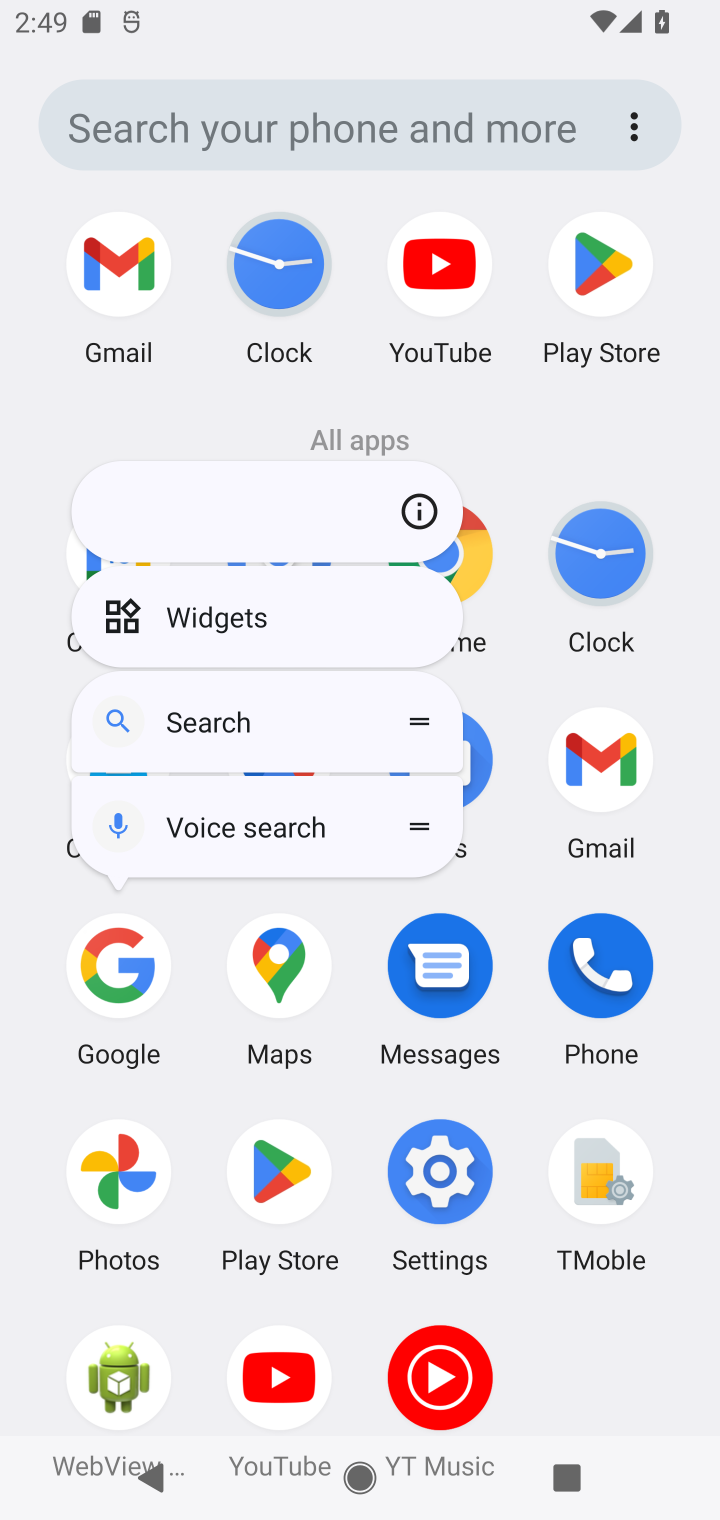
Step 29: click (211, 723)
Your task to perform on an android device: Go to ESPN.com Image 30: 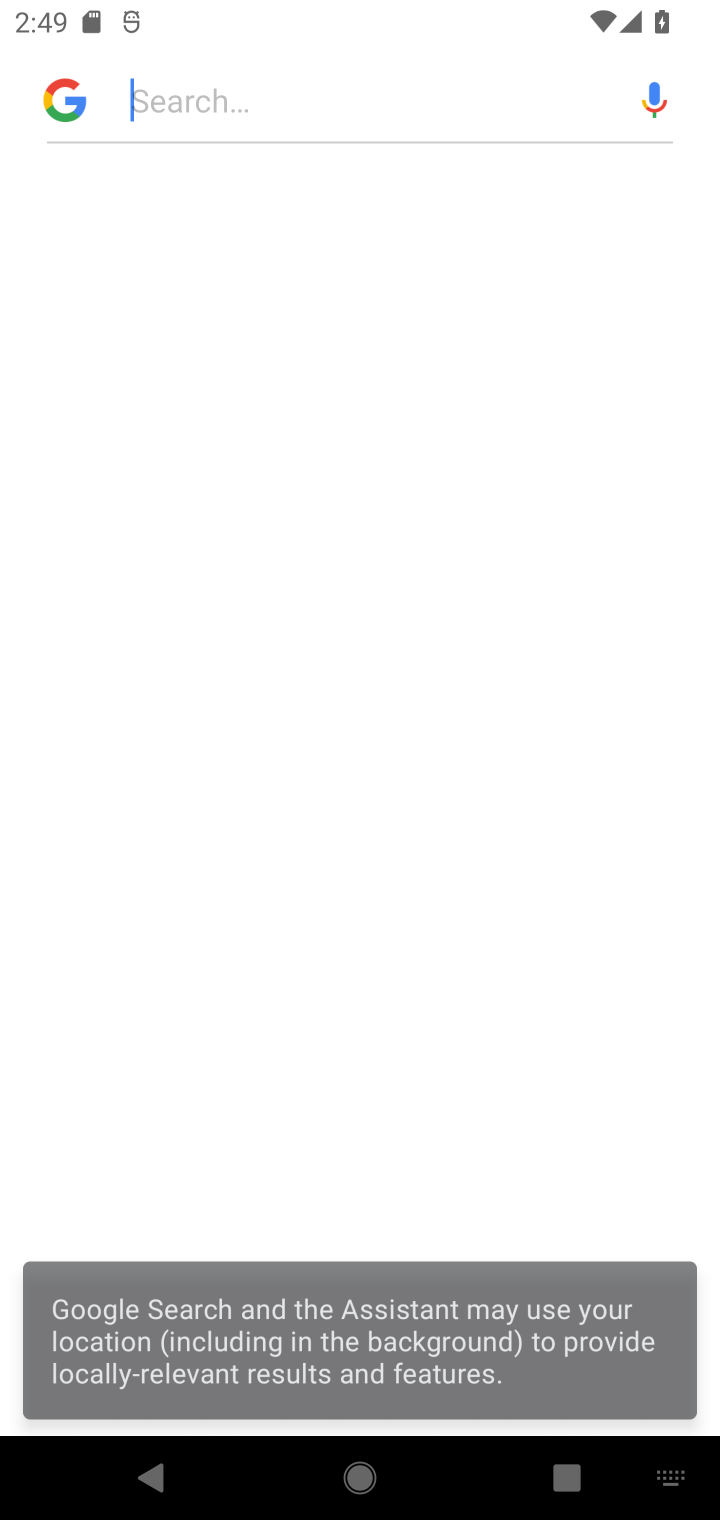
Step 30: type "ESPN.com"
Your task to perform on an android device: Go to ESPN.com Image 31: 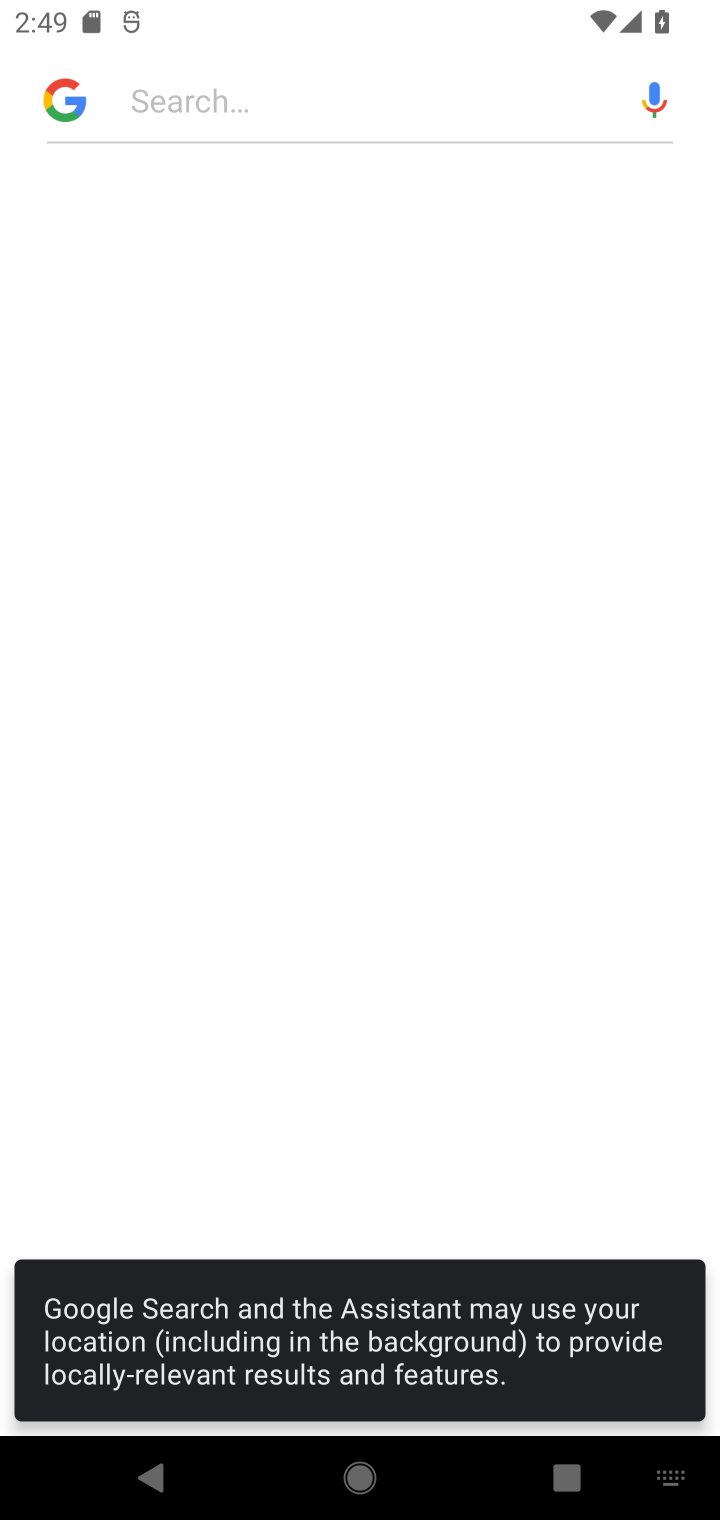
Step 31: click (201, 102)
Your task to perform on an android device: Go to ESPN.com Image 32: 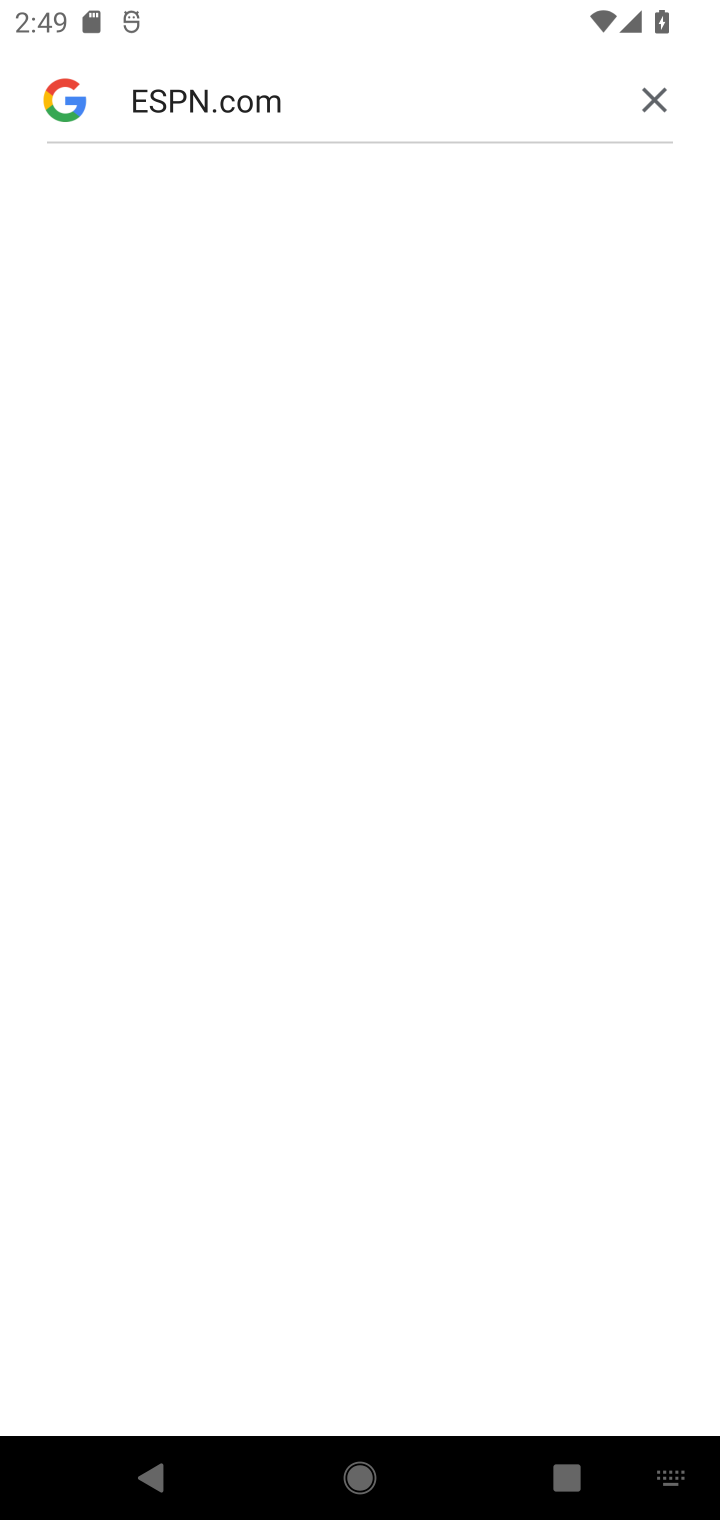
Step 32: press enter
Your task to perform on an android device: Go to ESPN.com Image 33: 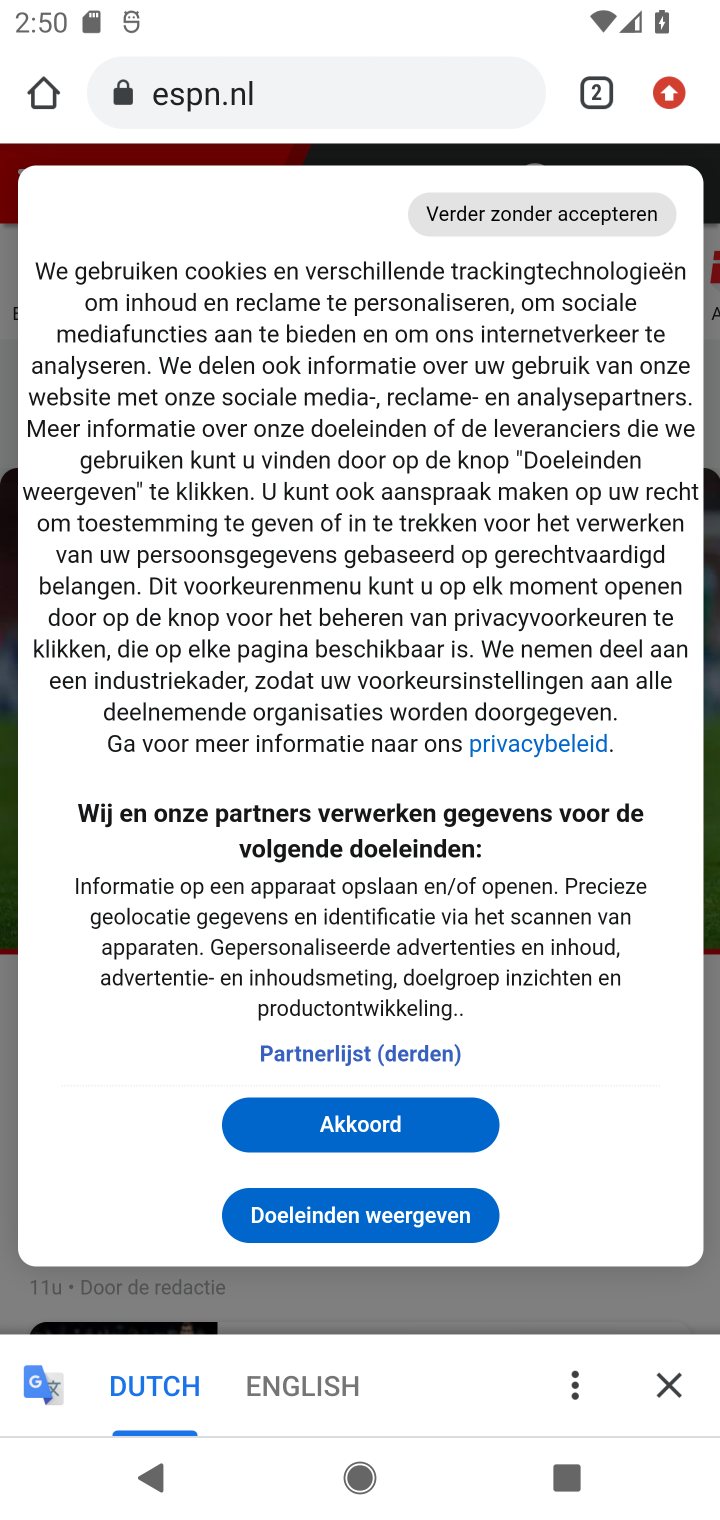
Step 33: click (346, 1119)
Your task to perform on an android device: Go to ESPN.com Image 34: 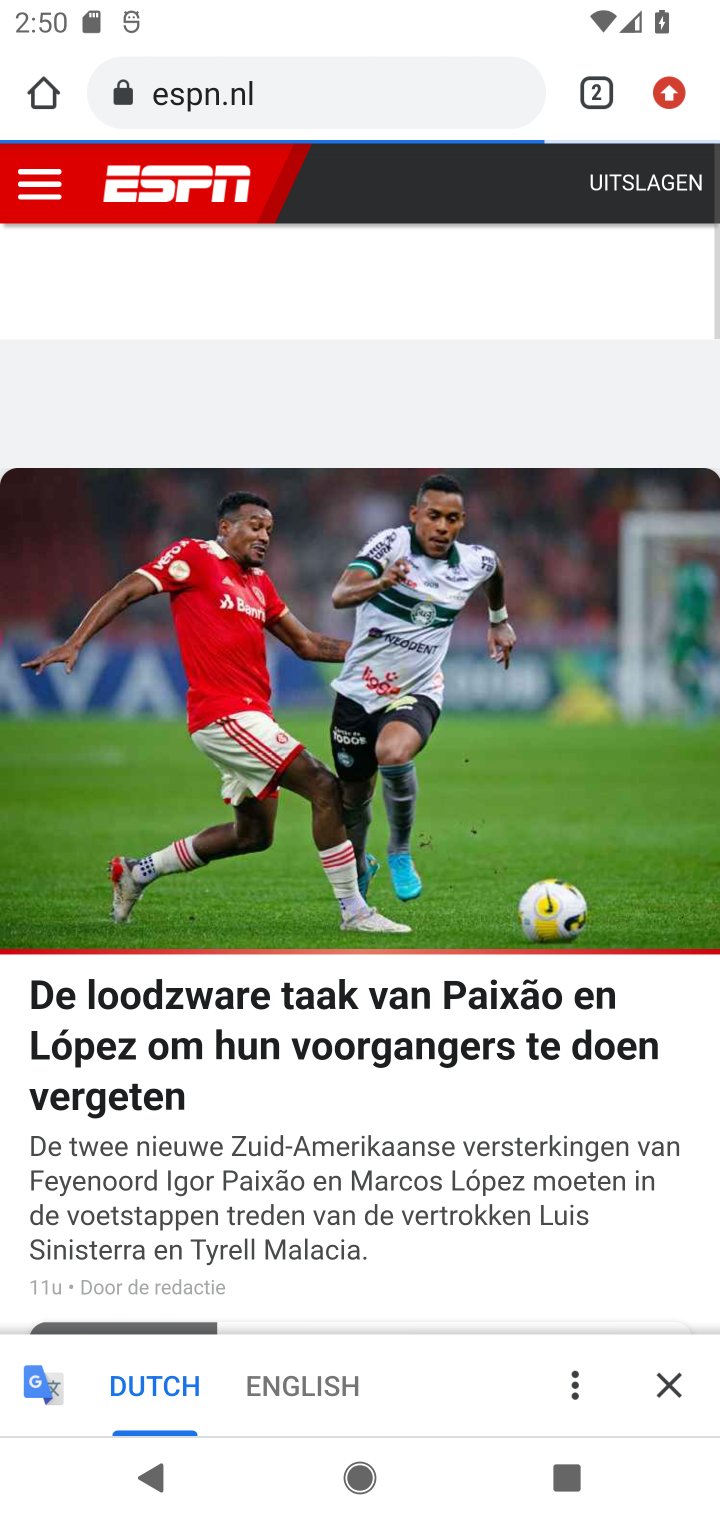
Step 34: task complete